Your task to perform on an android device: uninstall "Roku - Official Remote Control" Image 0: 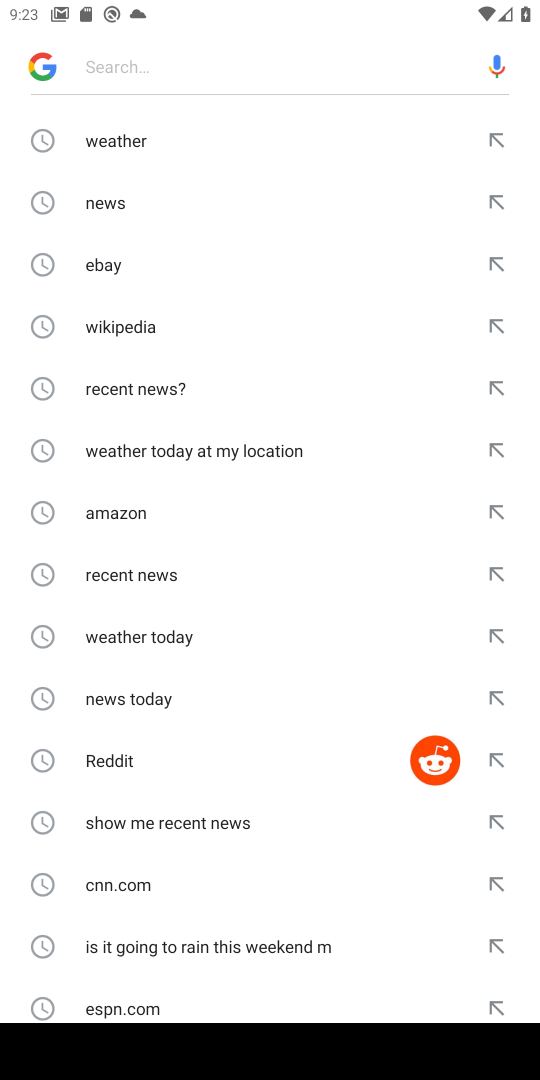
Step 0: press back button
Your task to perform on an android device: uninstall "Roku - Official Remote Control" Image 1: 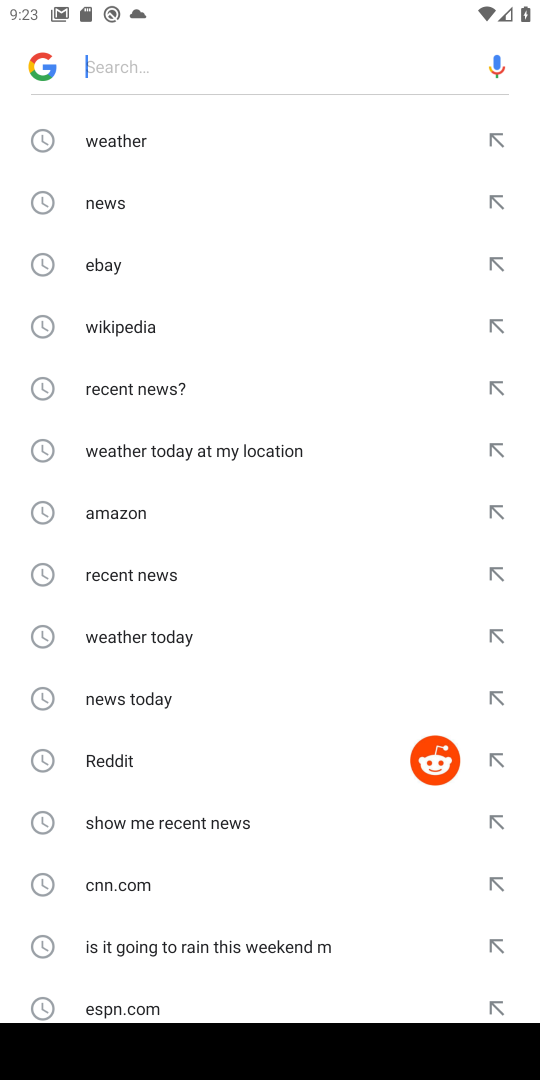
Step 1: press back button
Your task to perform on an android device: uninstall "Roku - Official Remote Control" Image 2: 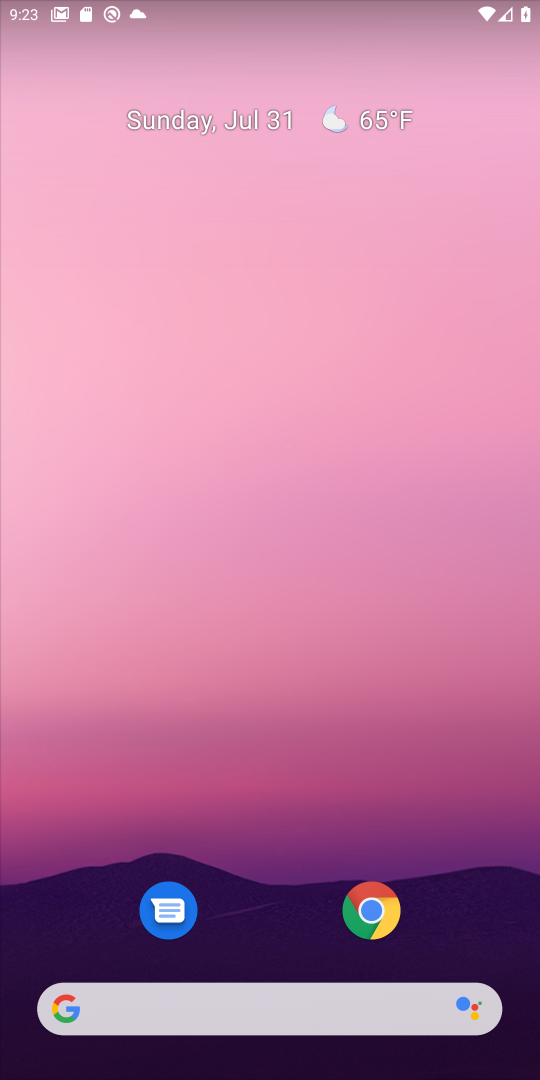
Step 2: press back button
Your task to perform on an android device: uninstall "Roku - Official Remote Control" Image 3: 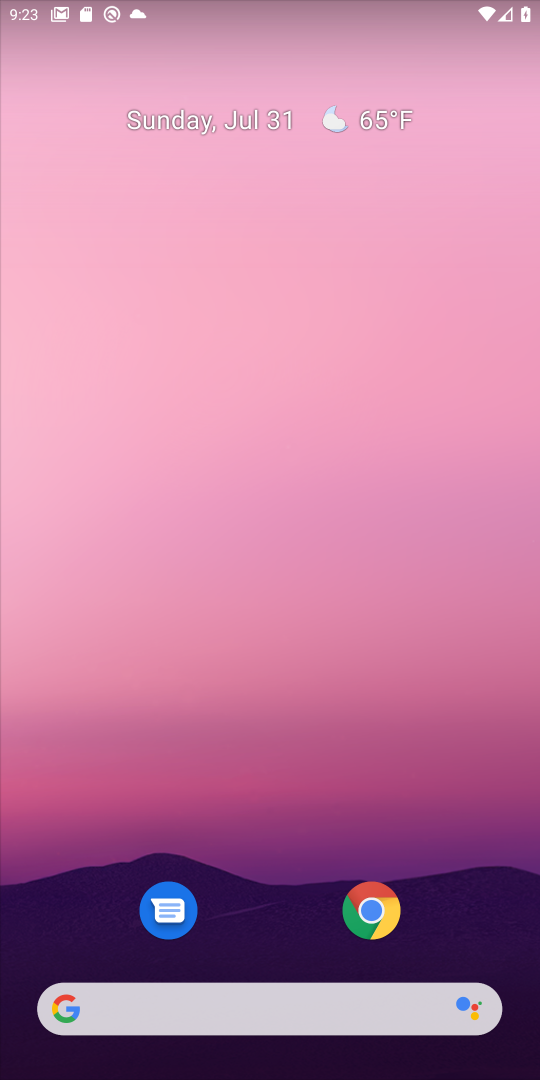
Step 3: drag from (224, 605) to (224, 294)
Your task to perform on an android device: uninstall "Roku - Official Remote Control" Image 4: 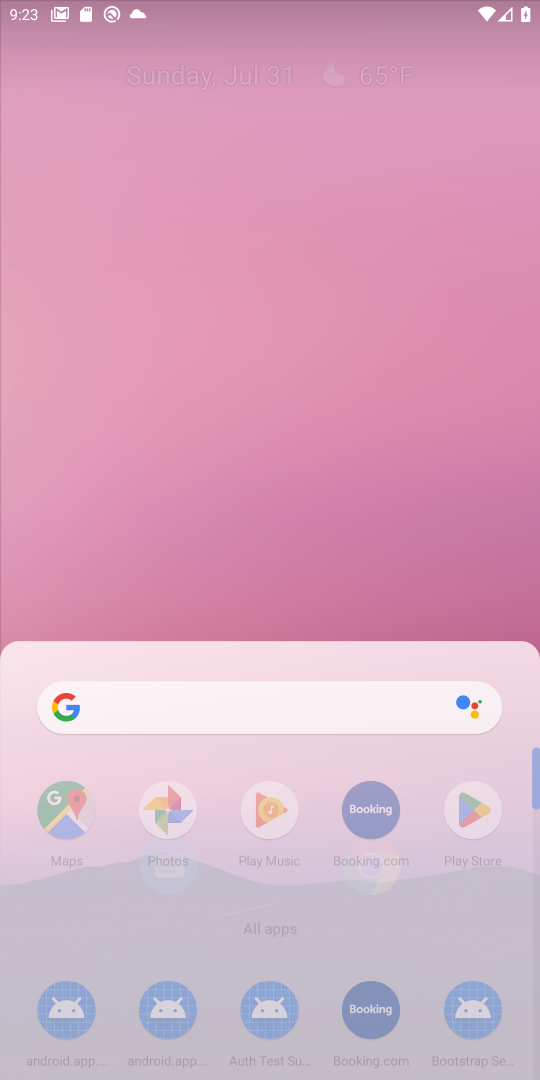
Step 4: drag from (259, 701) to (219, 565)
Your task to perform on an android device: uninstall "Roku - Official Remote Control" Image 5: 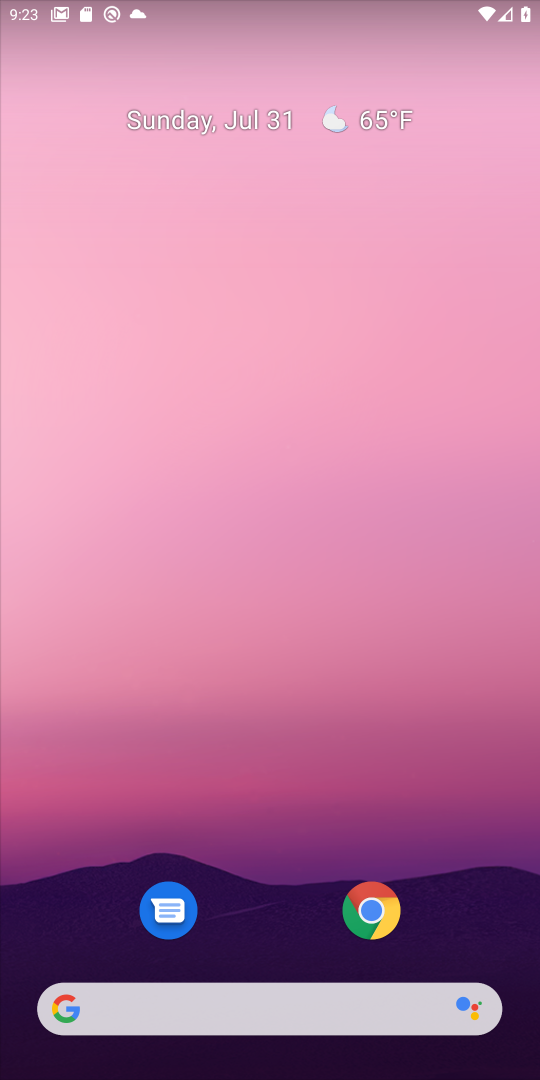
Step 5: drag from (320, 911) to (322, 283)
Your task to perform on an android device: uninstall "Roku - Official Remote Control" Image 6: 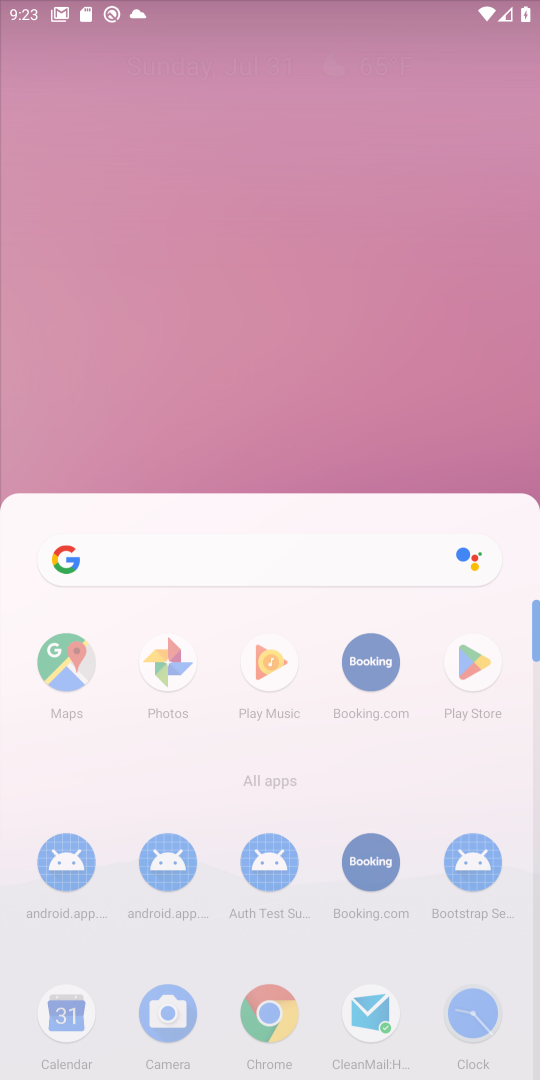
Step 6: drag from (221, 468) to (201, 350)
Your task to perform on an android device: uninstall "Roku - Official Remote Control" Image 7: 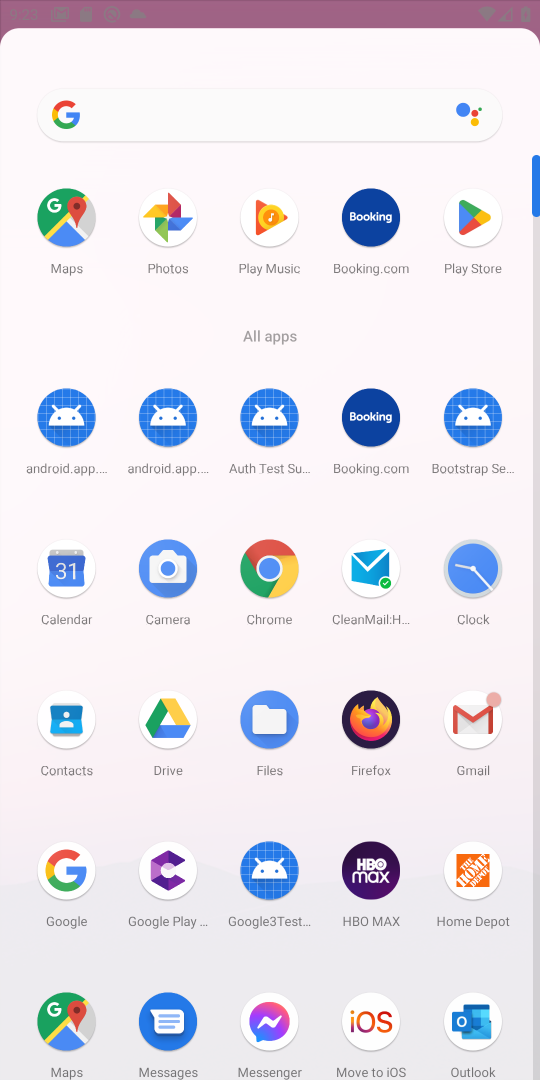
Step 7: click (222, 341)
Your task to perform on an android device: uninstall "Roku - Official Remote Control" Image 8: 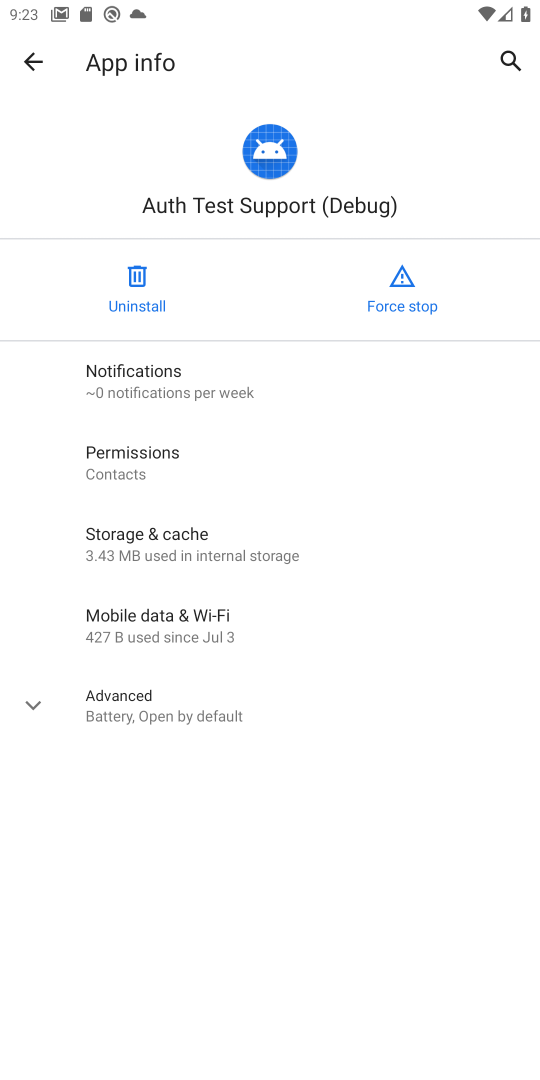
Step 8: click (29, 64)
Your task to perform on an android device: uninstall "Roku - Official Remote Control" Image 9: 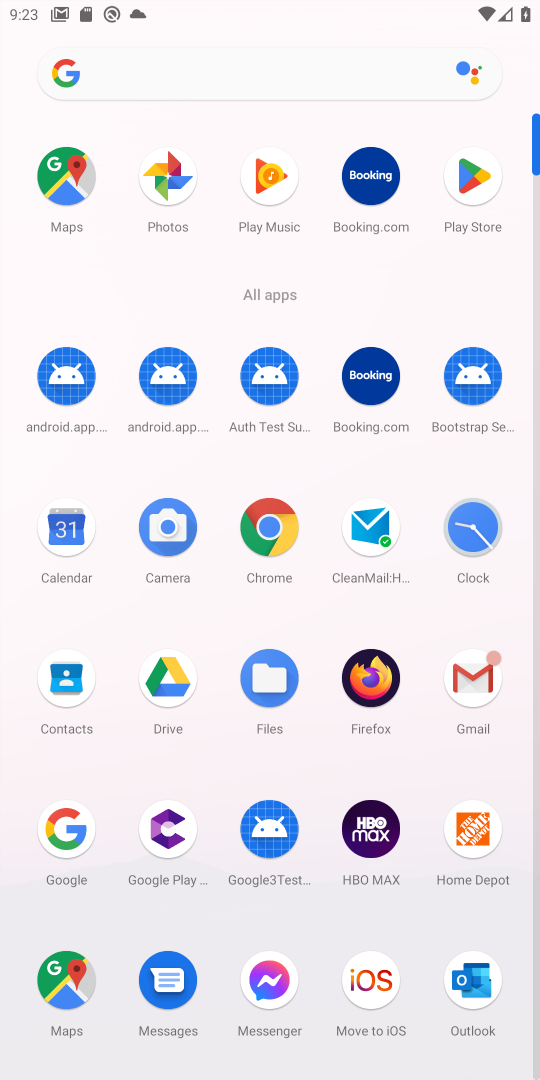
Step 9: click (476, 172)
Your task to perform on an android device: uninstall "Roku - Official Remote Control" Image 10: 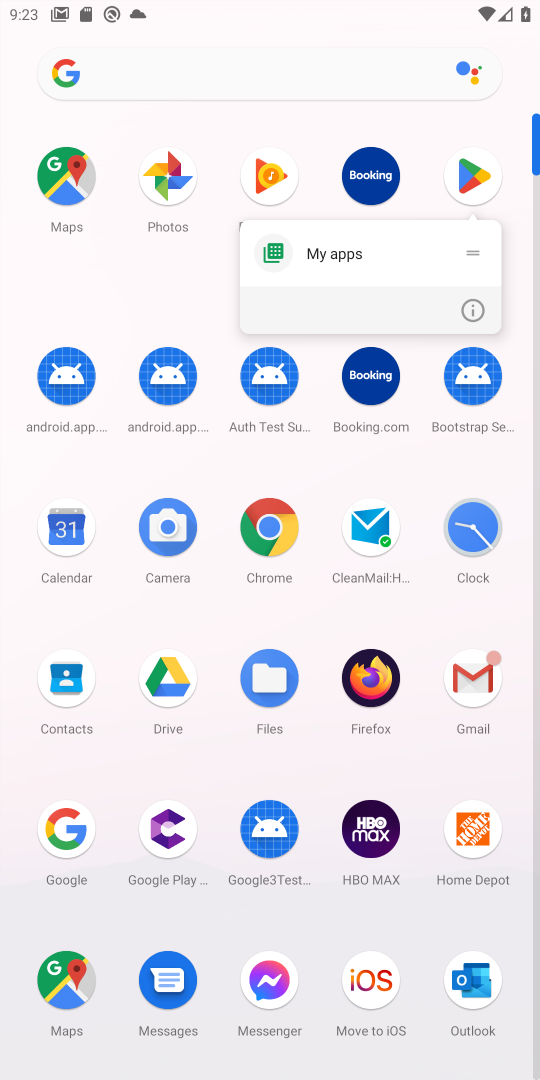
Step 10: click (248, 186)
Your task to perform on an android device: uninstall "Roku - Official Remote Control" Image 11: 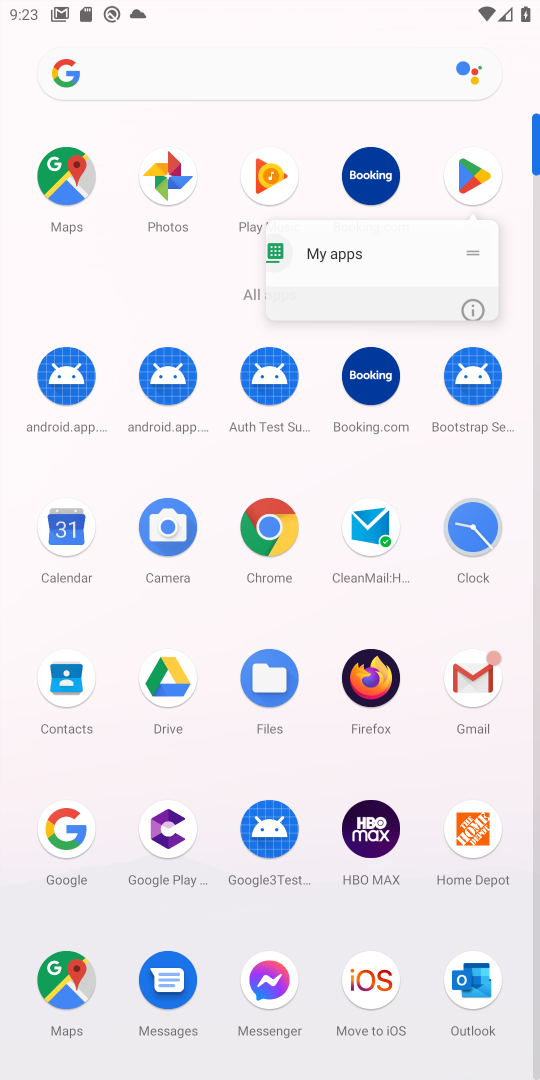
Step 11: click (248, 186)
Your task to perform on an android device: uninstall "Roku - Official Remote Control" Image 12: 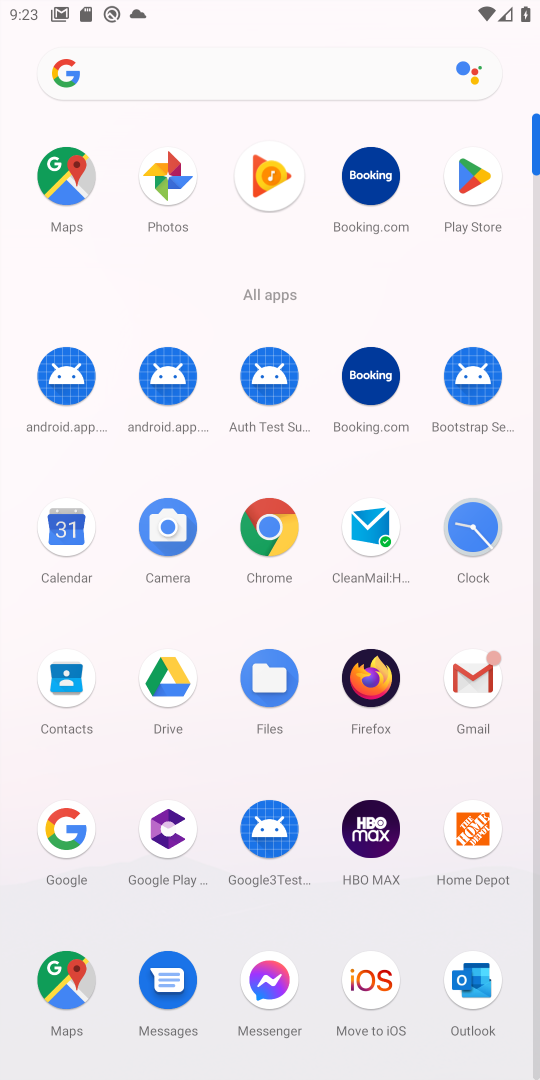
Step 12: click (248, 181)
Your task to perform on an android device: uninstall "Roku - Official Remote Control" Image 13: 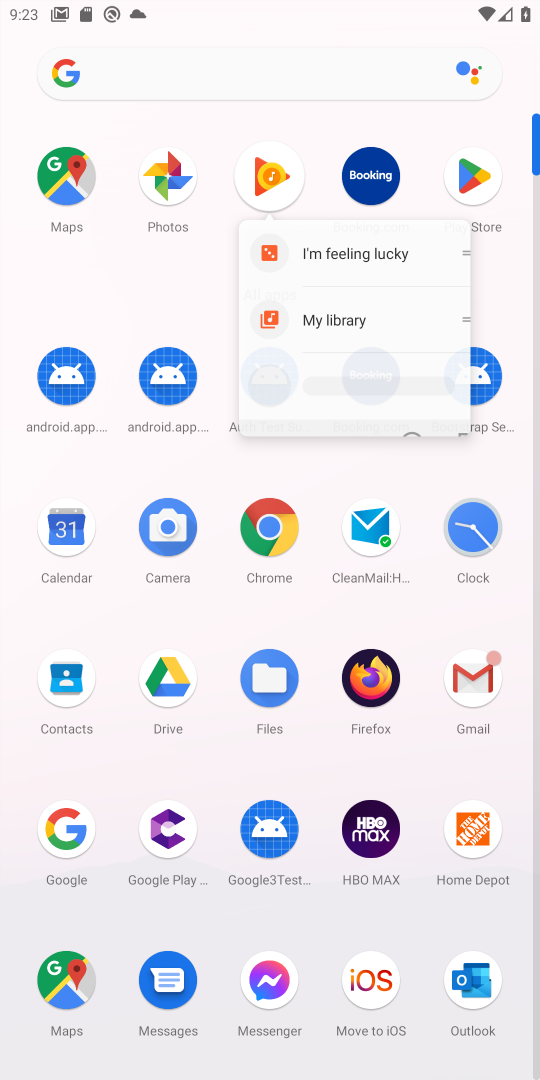
Step 13: click (251, 182)
Your task to perform on an android device: uninstall "Roku - Official Remote Control" Image 14: 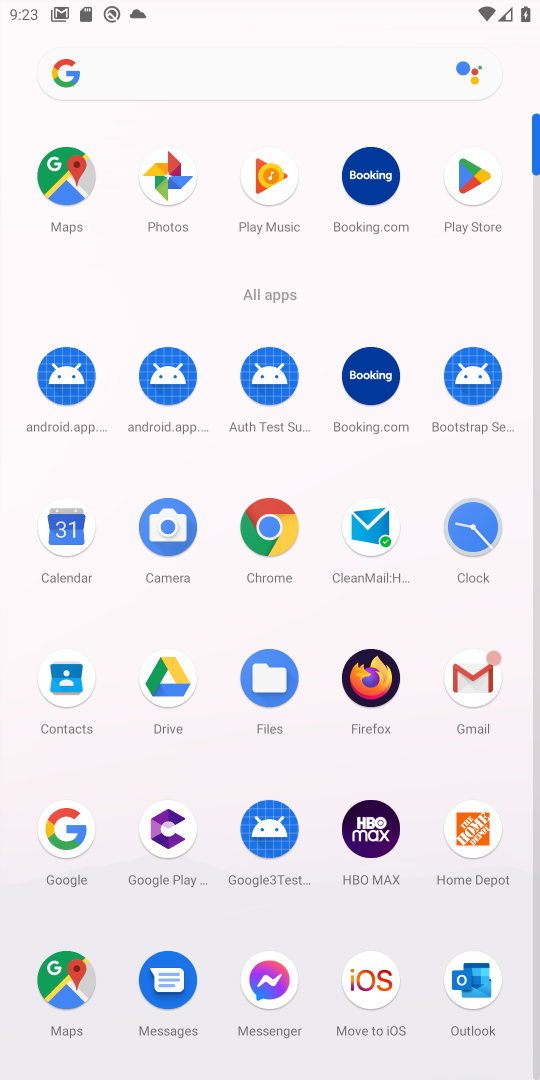
Step 14: click (479, 182)
Your task to perform on an android device: uninstall "Roku - Official Remote Control" Image 15: 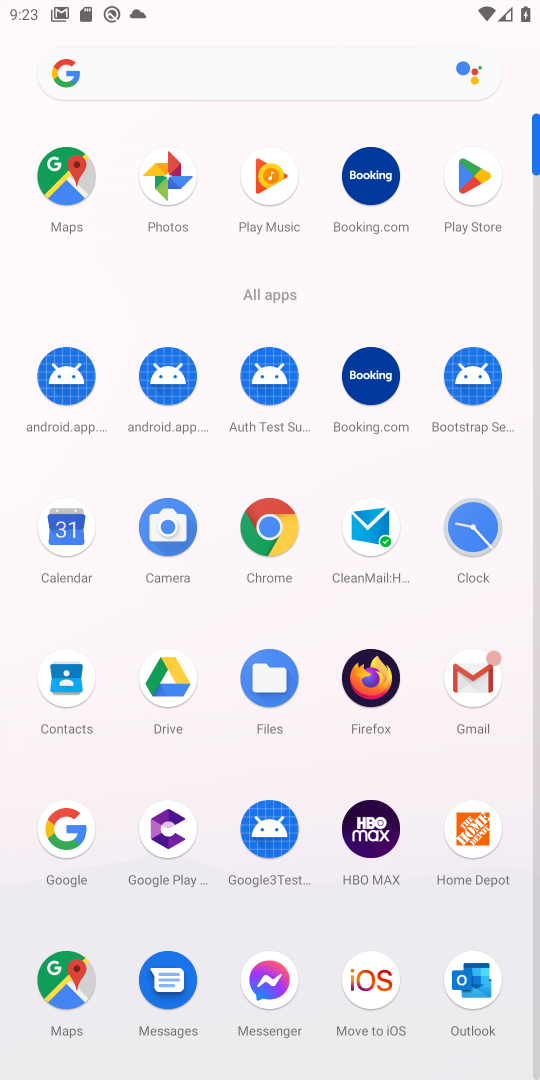
Step 15: click (480, 189)
Your task to perform on an android device: uninstall "Roku - Official Remote Control" Image 16: 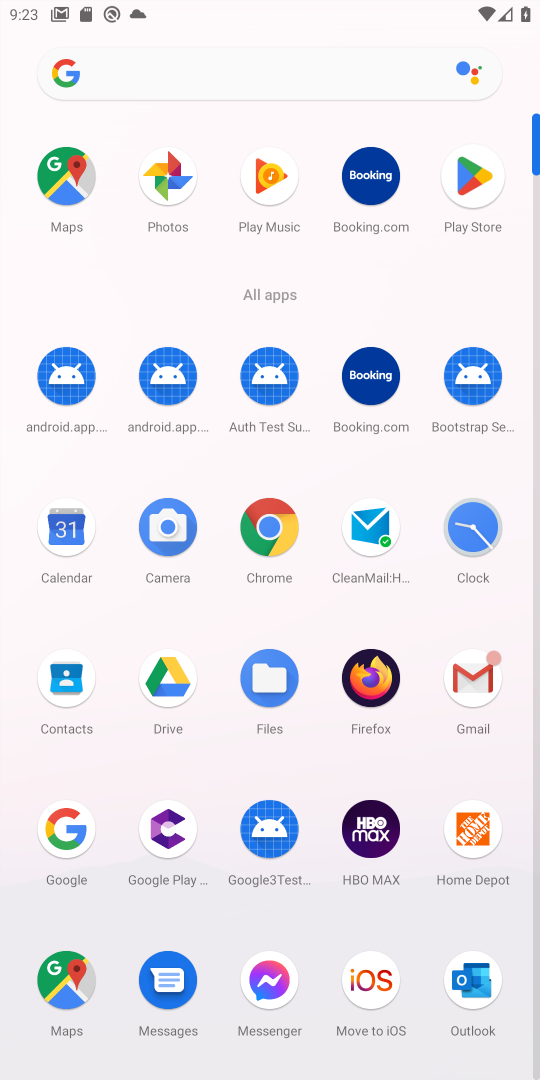
Step 16: click (473, 178)
Your task to perform on an android device: uninstall "Roku - Official Remote Control" Image 17: 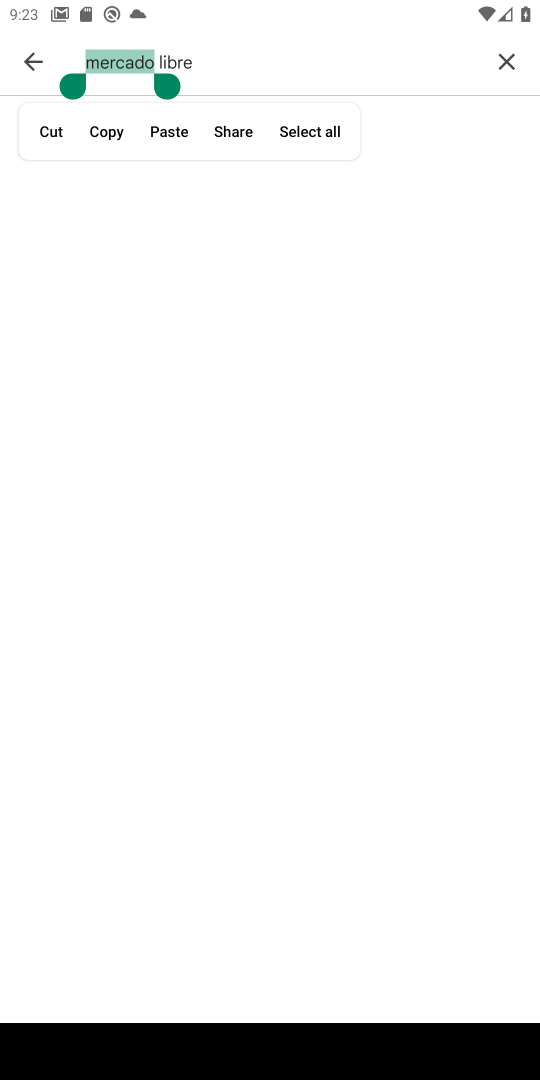
Step 17: click (510, 60)
Your task to perform on an android device: uninstall "Roku - Official Remote Control" Image 18: 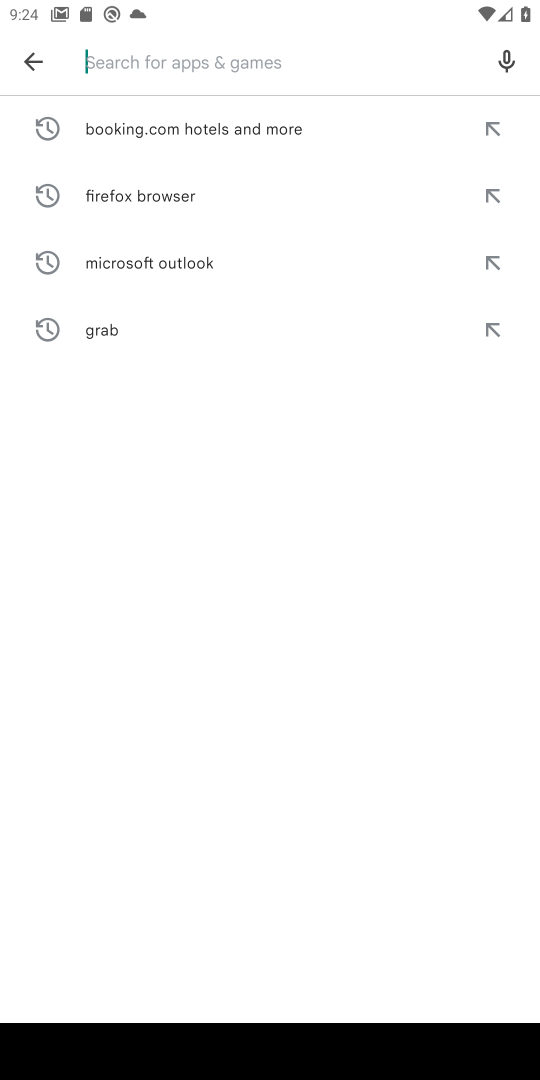
Step 18: type "Roku- Official Remote Control"
Your task to perform on an android device: uninstall "Roku - Official Remote Control" Image 19: 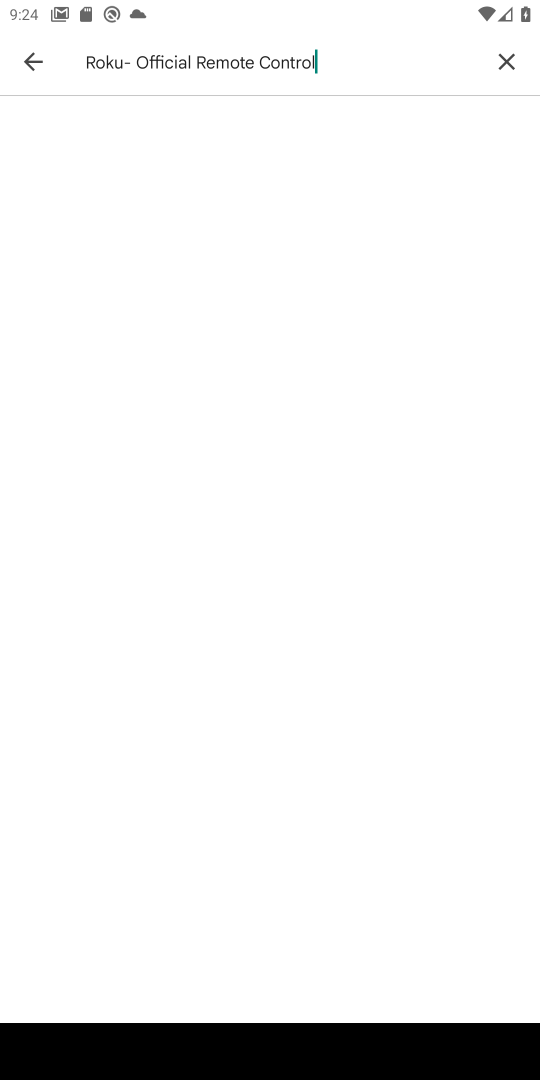
Step 19: click (236, 80)
Your task to perform on an android device: uninstall "Roku - Official Remote Control" Image 20: 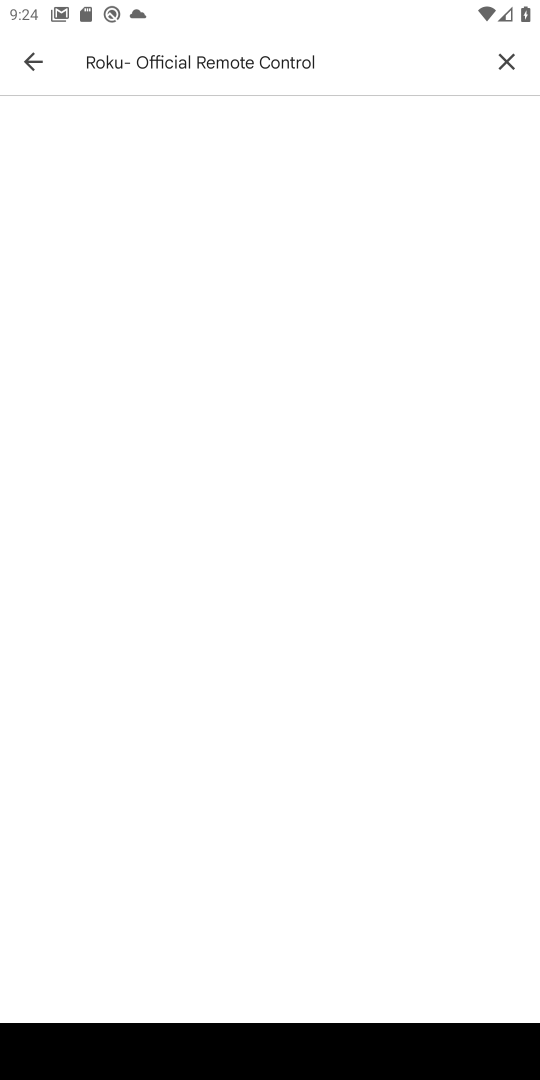
Step 20: click (236, 80)
Your task to perform on an android device: uninstall "Roku - Official Remote Control" Image 21: 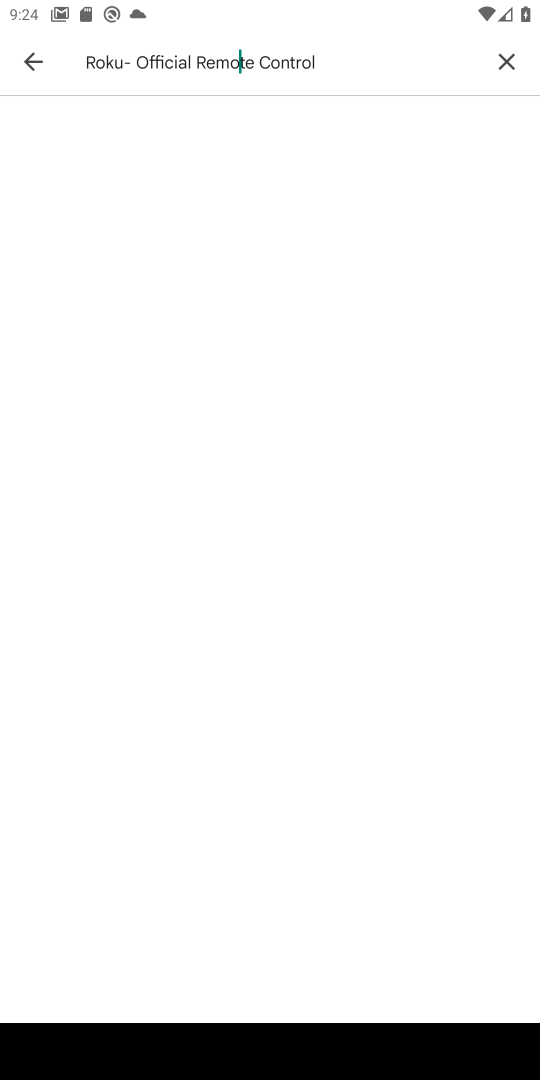
Step 21: click (236, 80)
Your task to perform on an android device: uninstall "Roku - Official Remote Control" Image 22: 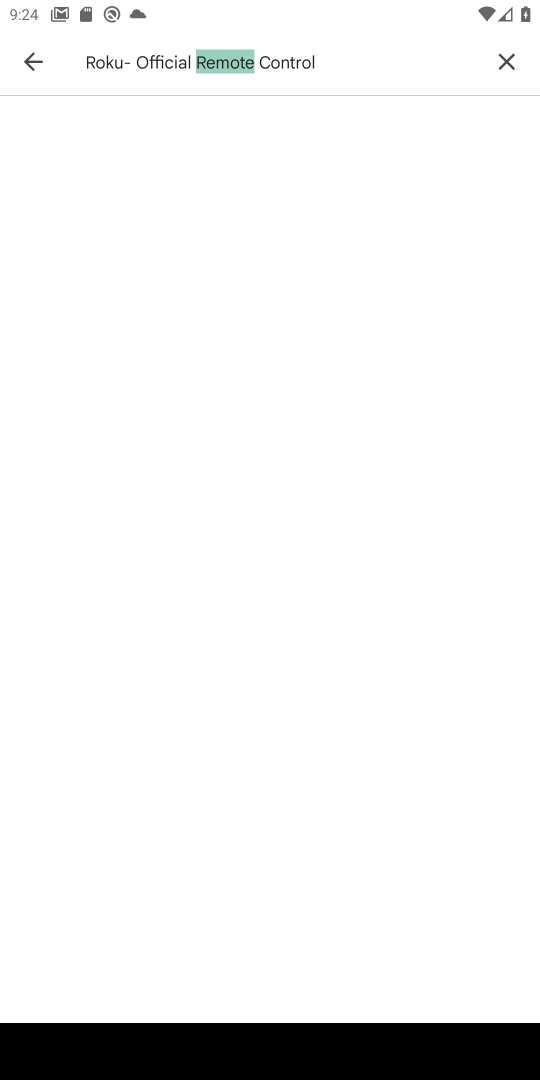
Step 22: click (236, 80)
Your task to perform on an android device: uninstall "Roku - Official Remote Control" Image 23: 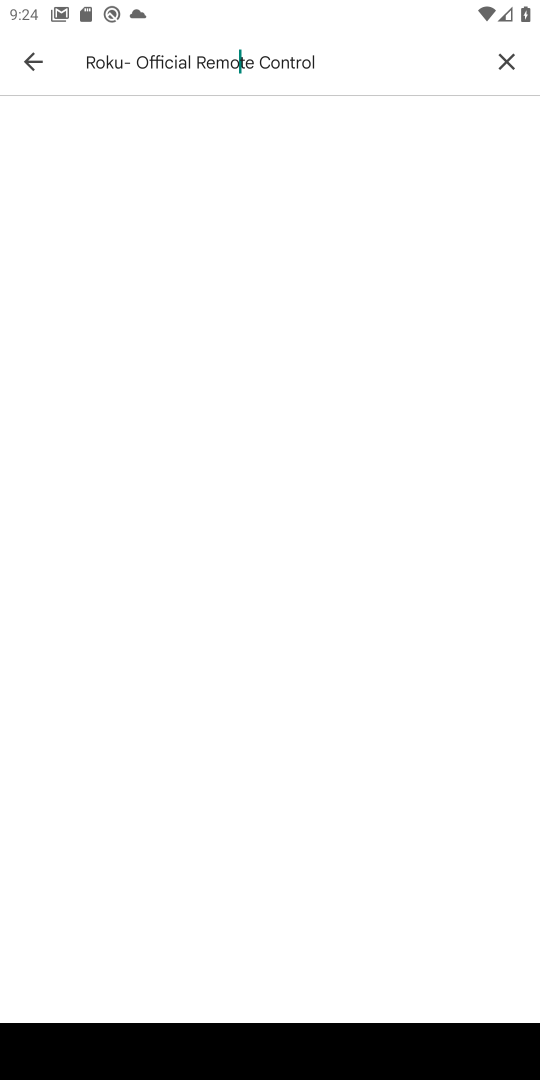
Step 23: click (236, 80)
Your task to perform on an android device: uninstall "Roku - Official Remote Control" Image 24: 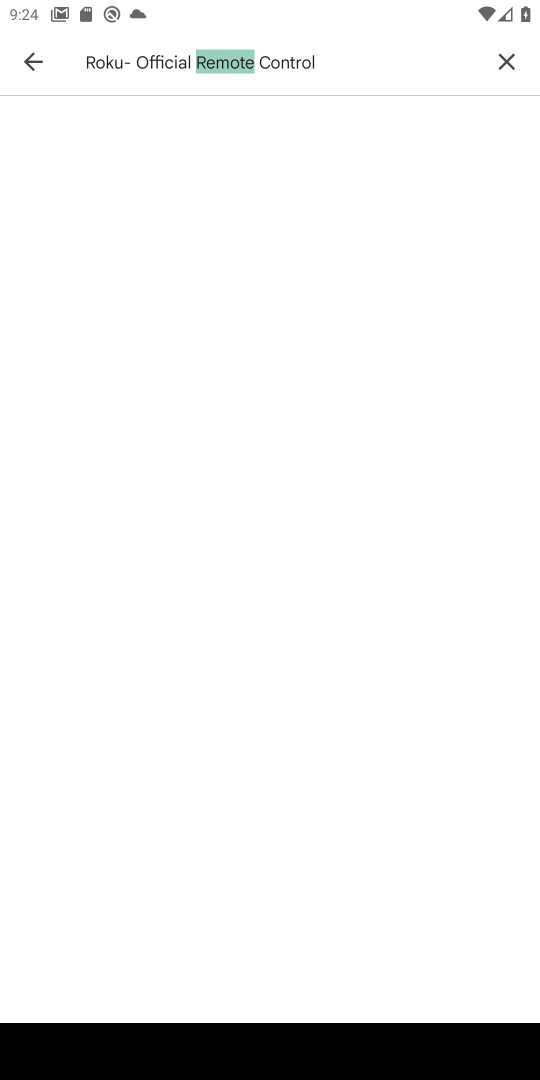
Step 24: click (236, 80)
Your task to perform on an android device: uninstall "Roku - Official Remote Control" Image 25: 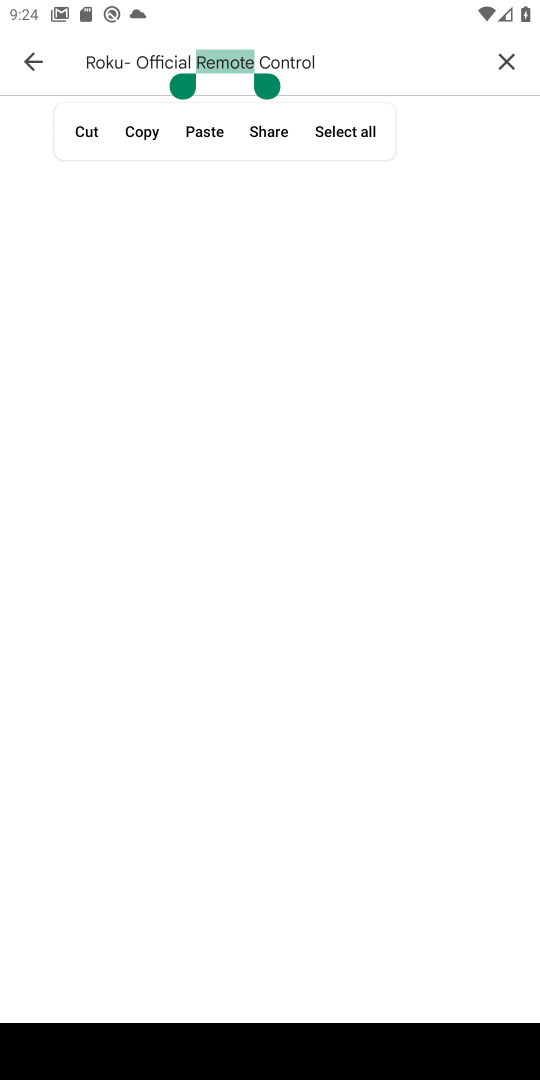
Step 25: click (301, 72)
Your task to perform on an android device: uninstall "Roku - Official Remote Control" Image 26: 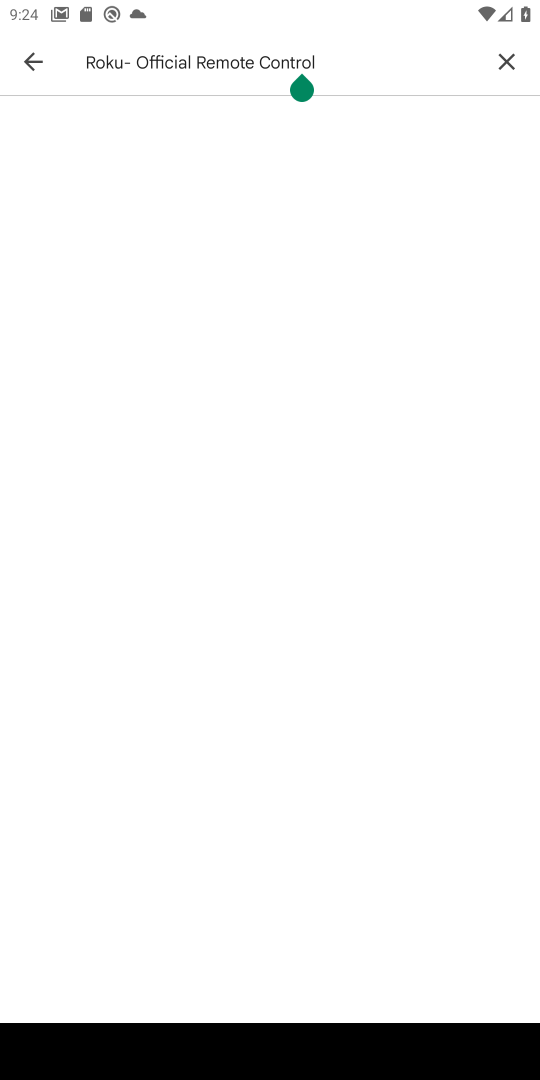
Step 26: click (330, 65)
Your task to perform on an android device: uninstall "Roku - Official Remote Control" Image 27: 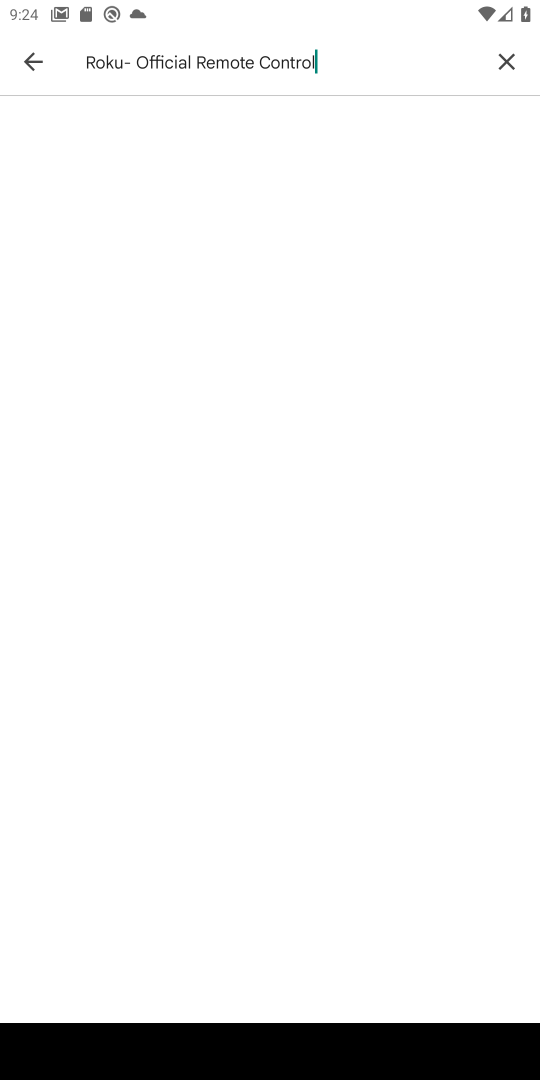
Step 27: click (330, 65)
Your task to perform on an android device: uninstall "Roku - Official Remote Control" Image 28: 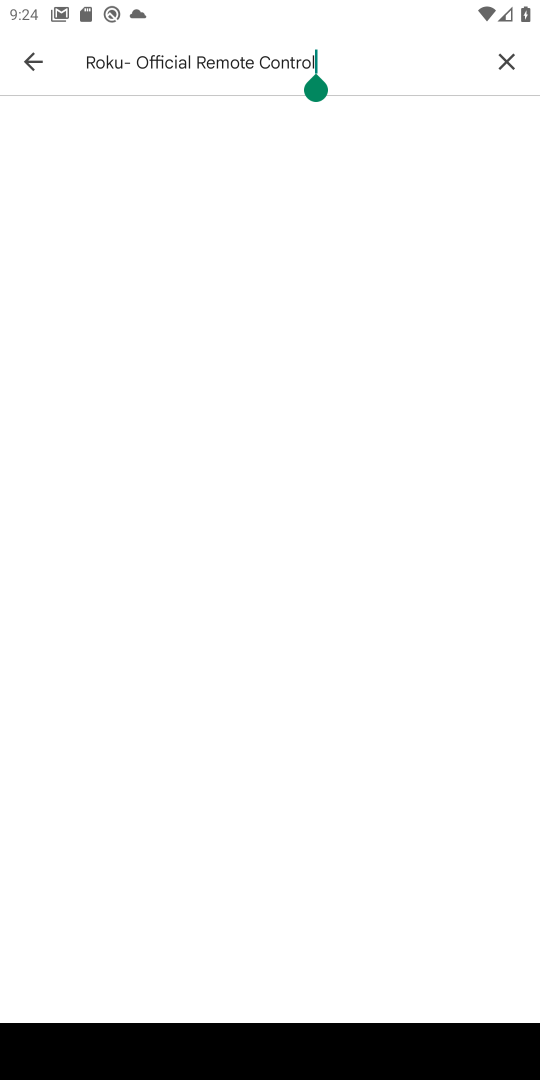
Step 28: click (322, 48)
Your task to perform on an android device: uninstall "Roku - Official Remote Control" Image 29: 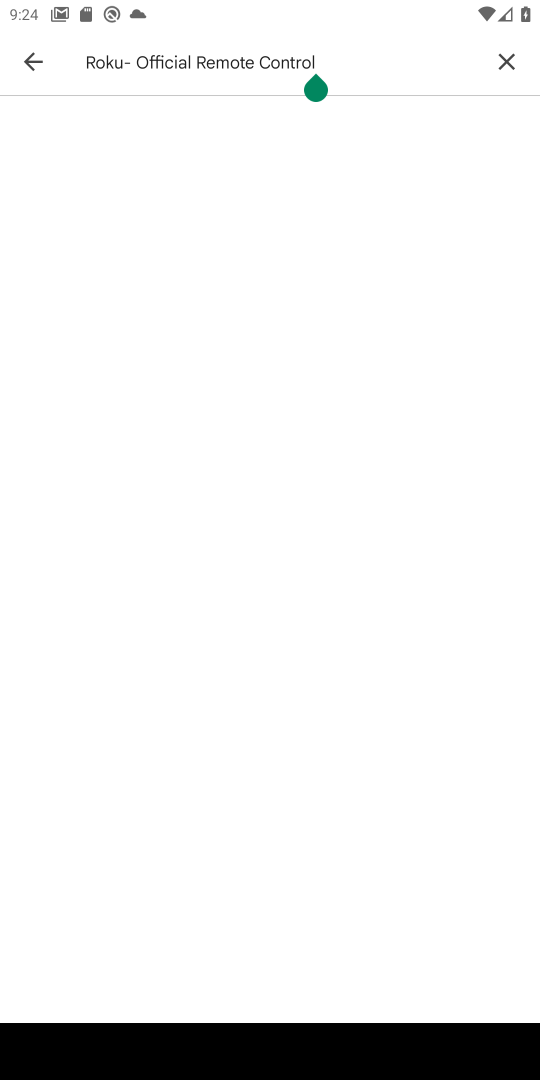
Step 29: click (322, 48)
Your task to perform on an android device: uninstall "Roku - Official Remote Control" Image 30: 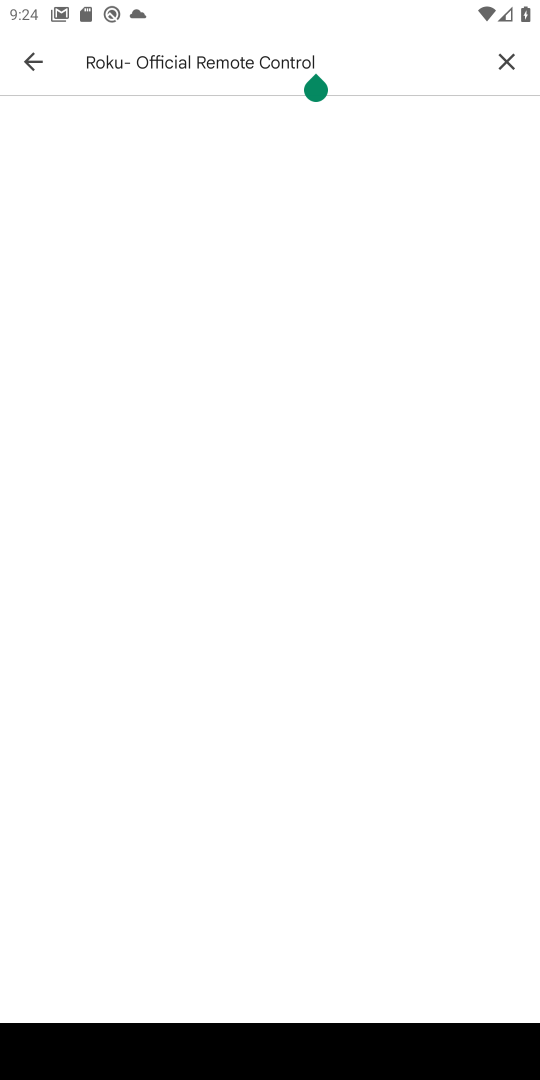
Step 30: click (322, 48)
Your task to perform on an android device: uninstall "Roku - Official Remote Control" Image 31: 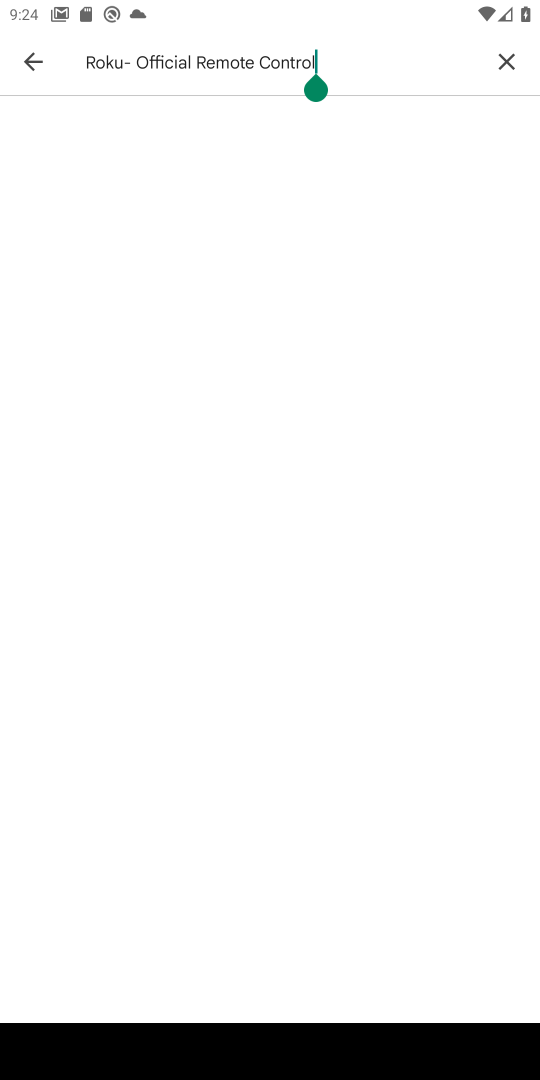
Step 31: click (212, 66)
Your task to perform on an android device: uninstall "Roku - Official Remote Control" Image 32: 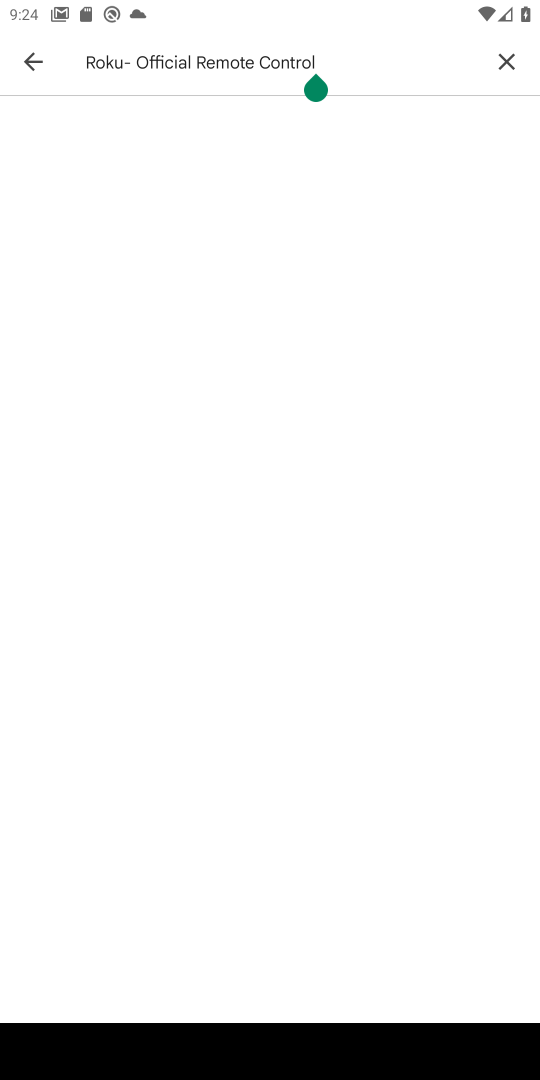
Step 32: click (217, 66)
Your task to perform on an android device: uninstall "Roku - Official Remote Control" Image 33: 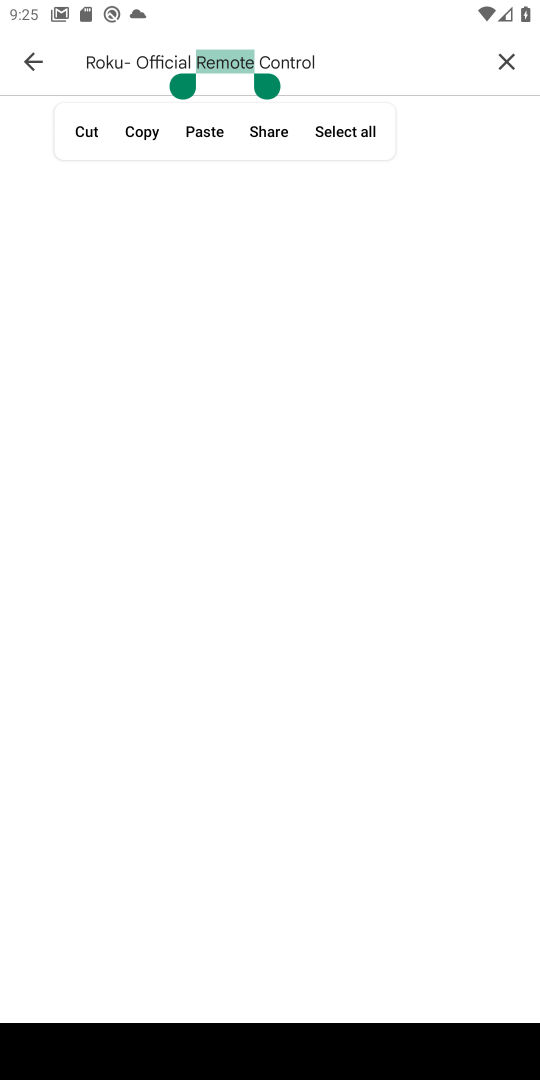
Step 33: click (322, 64)
Your task to perform on an android device: uninstall "Roku - Official Remote Control" Image 34: 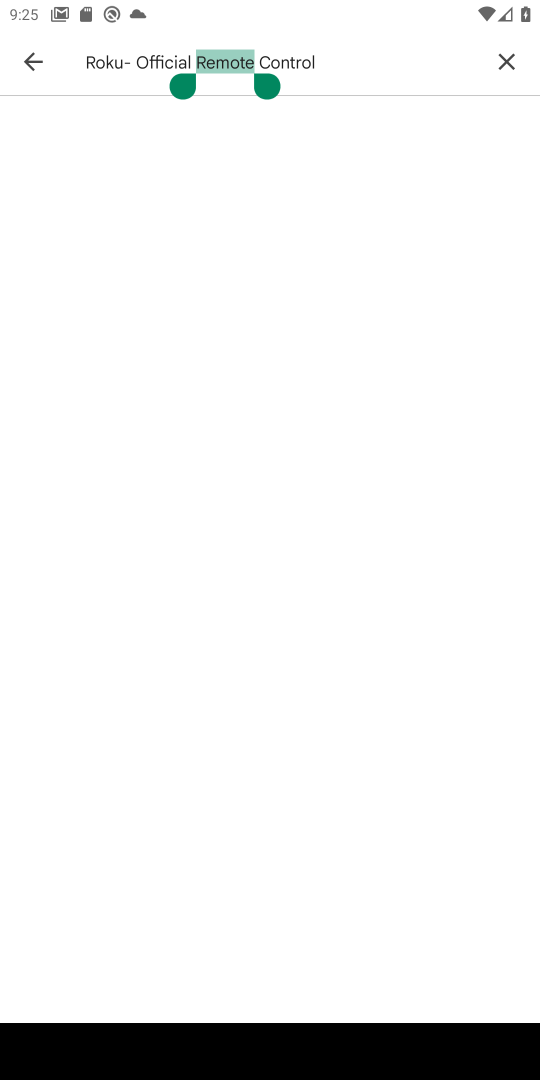
Step 34: click (327, 61)
Your task to perform on an android device: uninstall "Roku - Official Remote Control" Image 35: 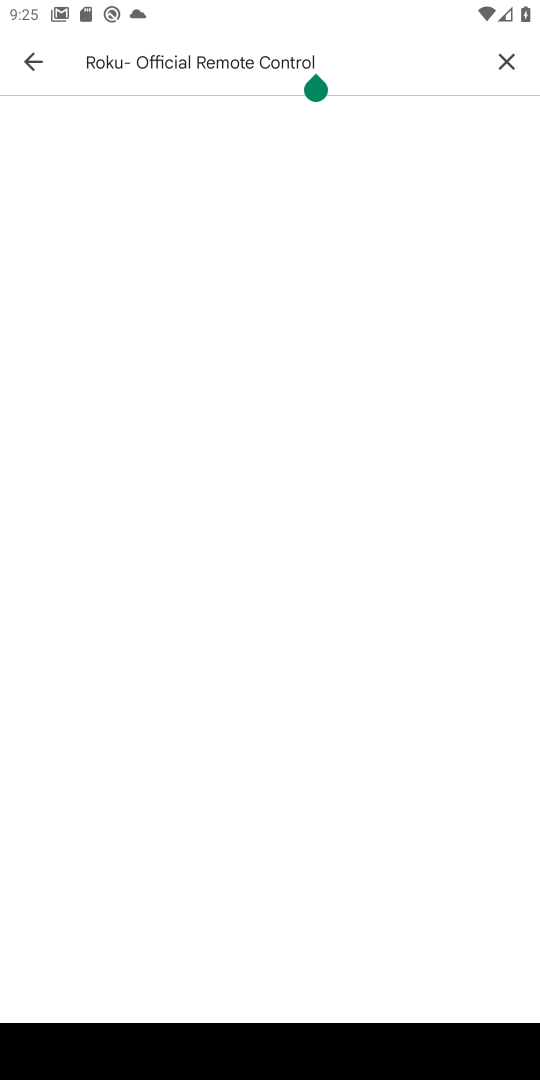
Step 35: click (500, 65)
Your task to perform on an android device: uninstall "Roku - Official Remote Control" Image 36: 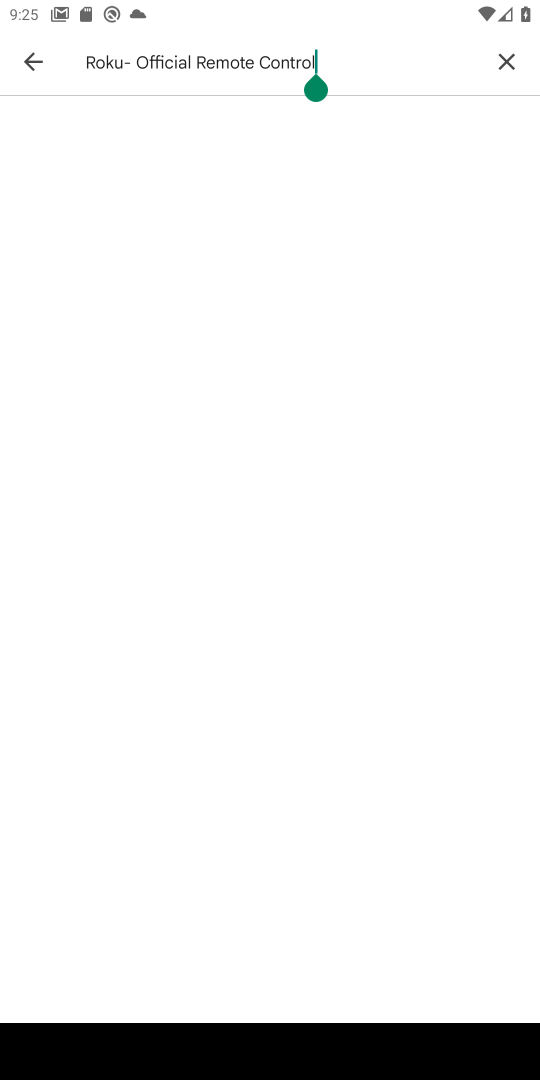
Step 36: click (508, 69)
Your task to perform on an android device: uninstall "Roku - Official Remote Control" Image 37: 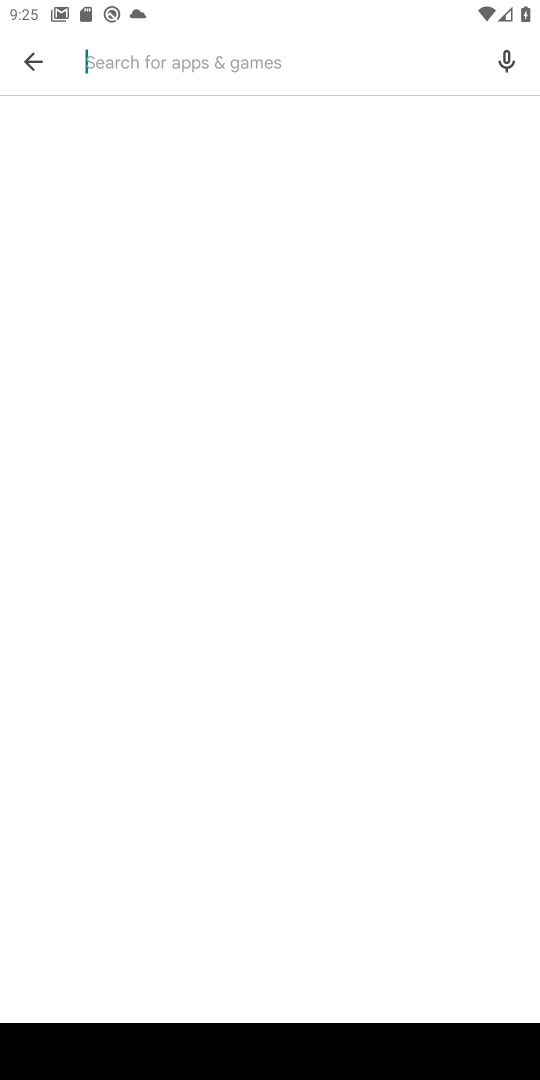
Step 37: click (508, 69)
Your task to perform on an android device: uninstall "Roku - Official Remote Control" Image 38: 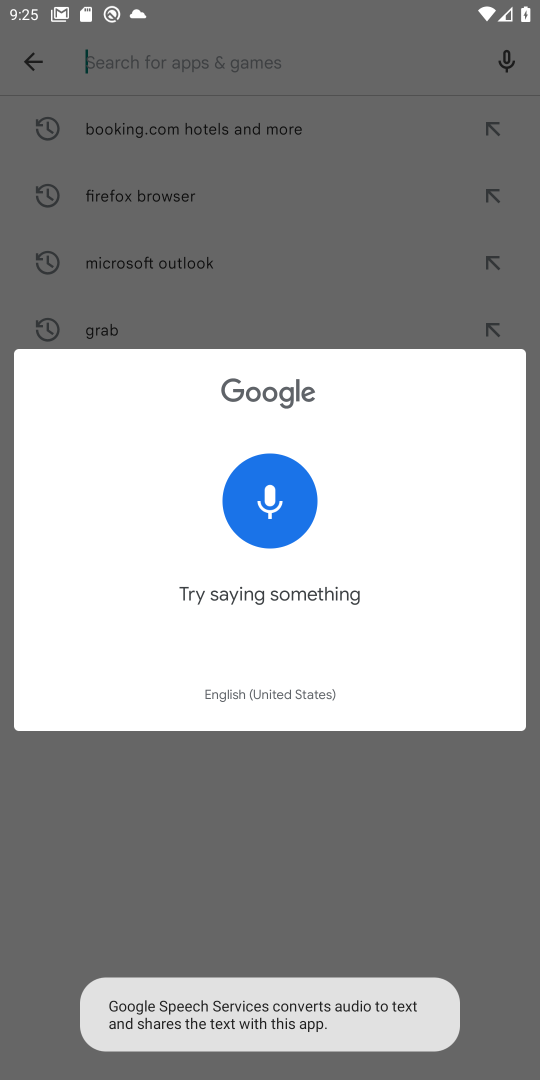
Step 38: click (32, 62)
Your task to perform on an android device: uninstall "Roku - Official Remote Control" Image 39: 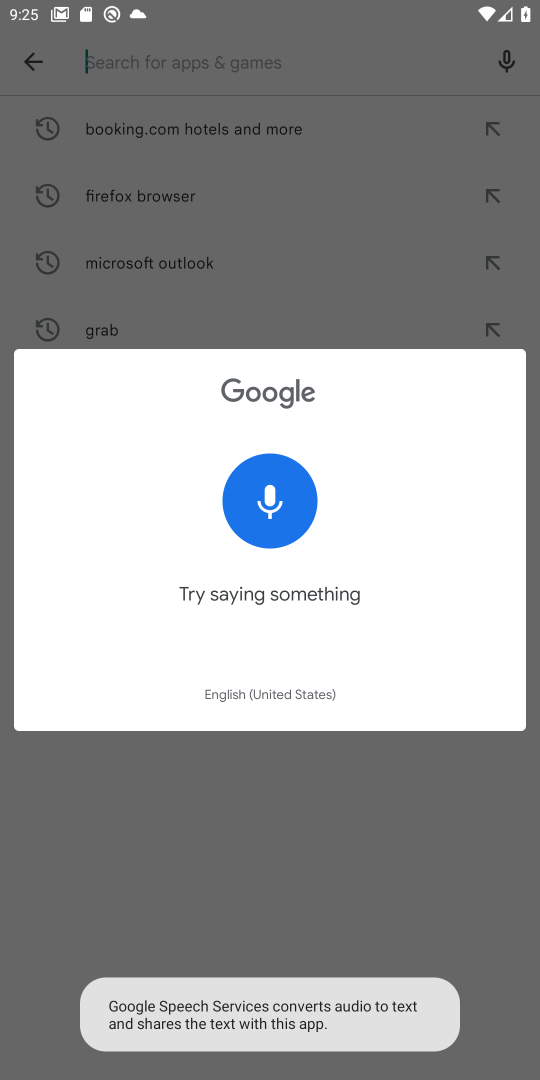
Step 39: click (32, 62)
Your task to perform on an android device: uninstall "Roku - Official Remote Control" Image 40: 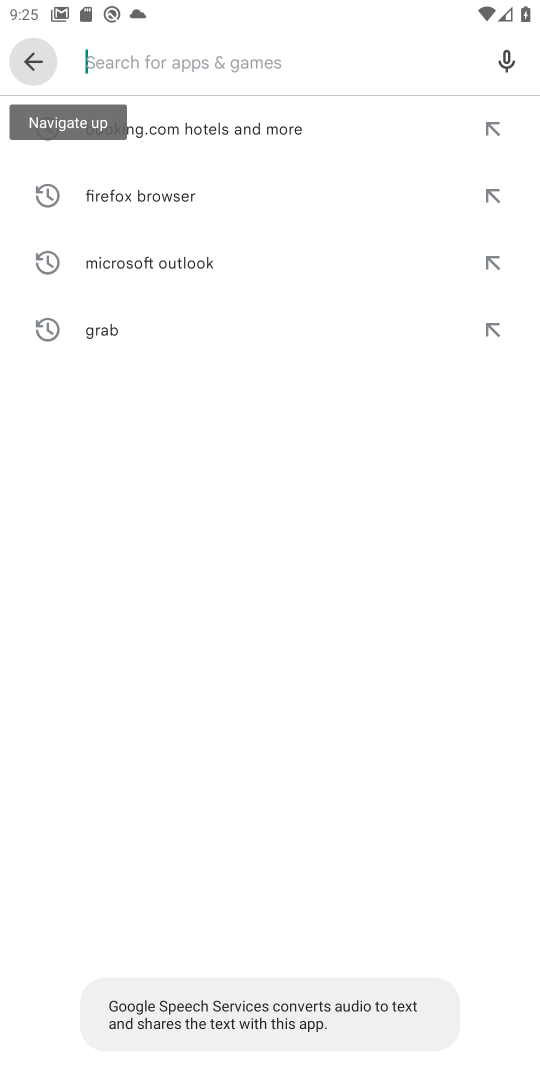
Step 40: click (296, 224)
Your task to perform on an android device: uninstall "Roku - Official Remote Control" Image 41: 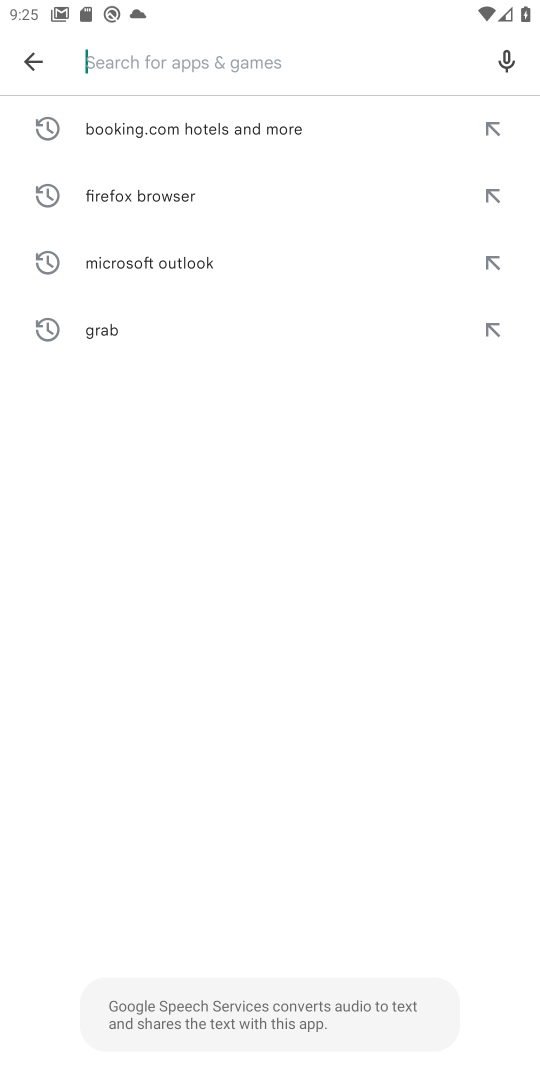
Step 41: click (302, 225)
Your task to perform on an android device: uninstall "Roku - Official Remote Control" Image 42: 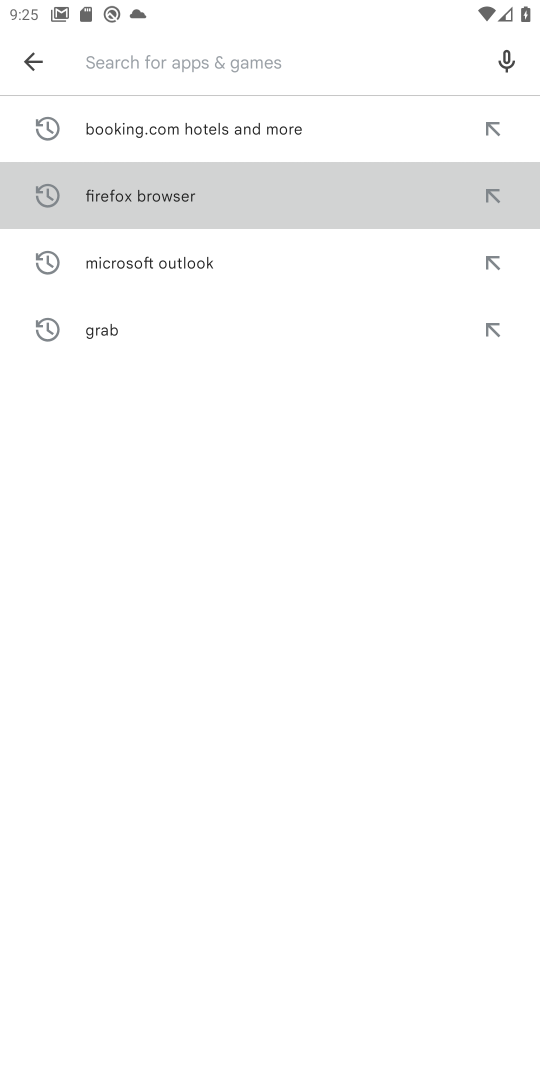
Step 42: click (305, 233)
Your task to perform on an android device: uninstall "Roku - Official Remote Control" Image 43: 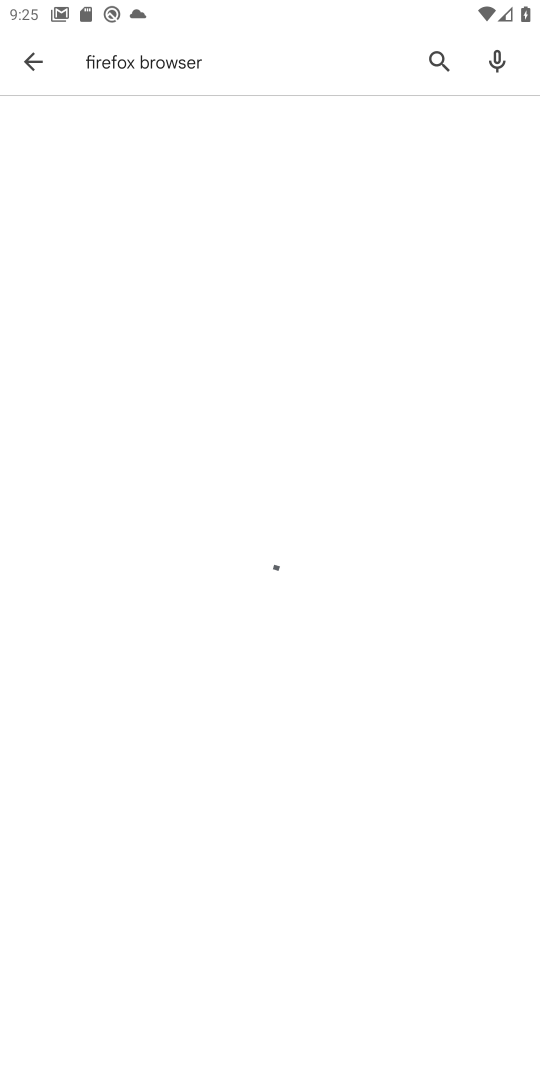
Step 43: click (328, 262)
Your task to perform on an android device: uninstall "Roku - Official Remote Control" Image 44: 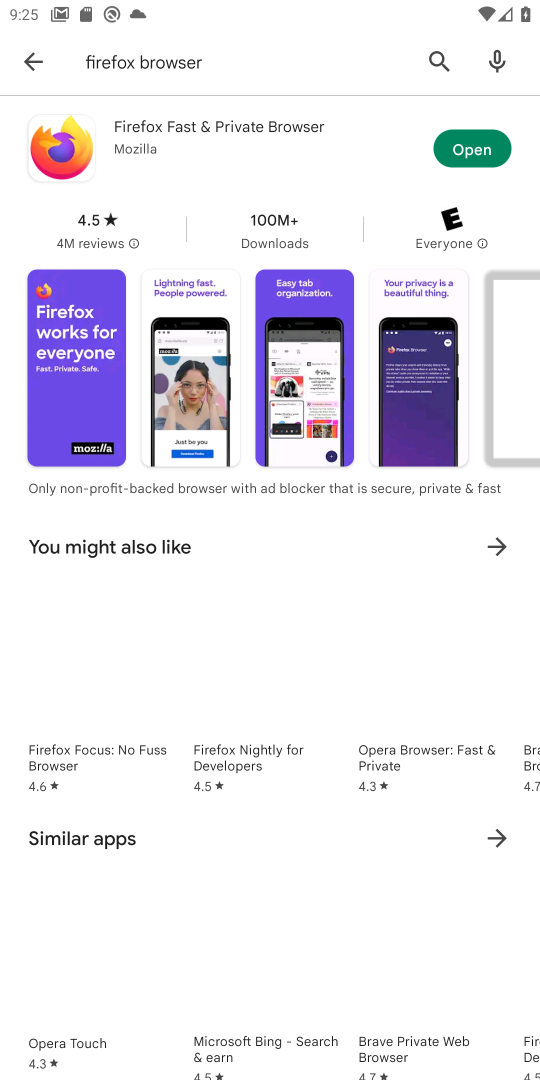
Step 44: click (40, 55)
Your task to perform on an android device: uninstall "Roku - Official Remote Control" Image 45: 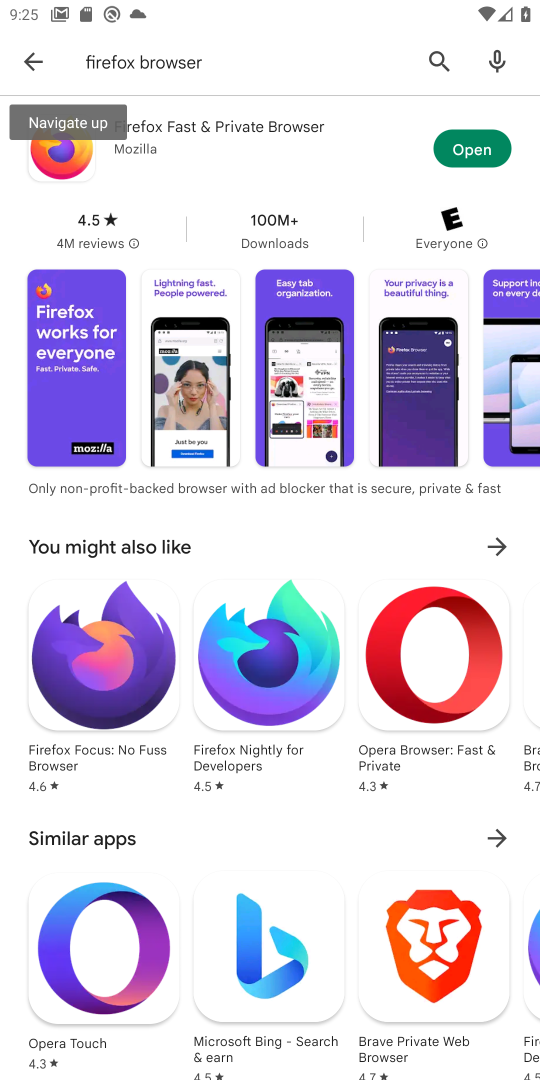
Step 45: click (49, 76)
Your task to perform on an android device: uninstall "Roku - Official Remote Control" Image 46: 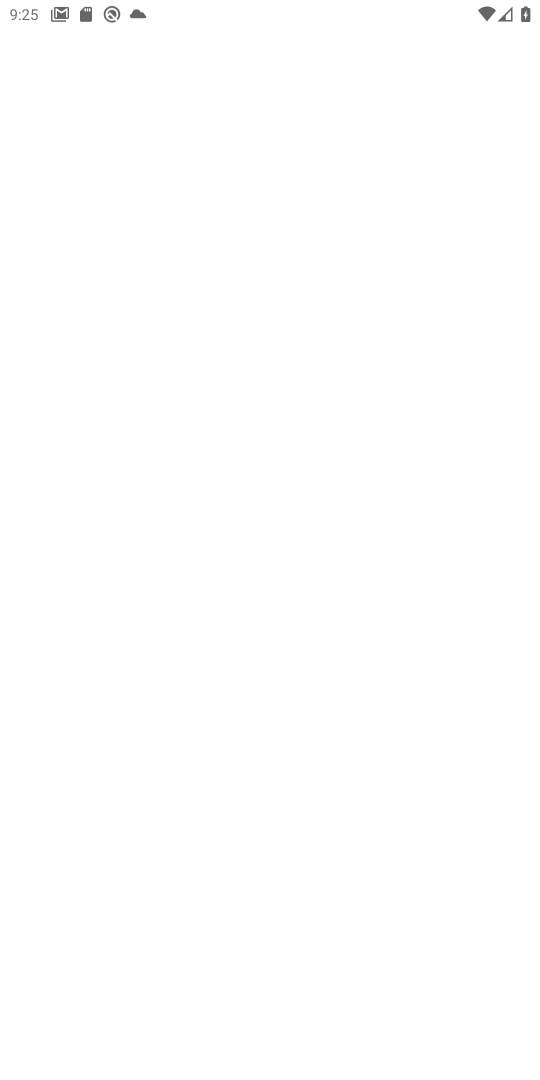
Step 46: press back button
Your task to perform on an android device: uninstall "Roku - Official Remote Control" Image 47: 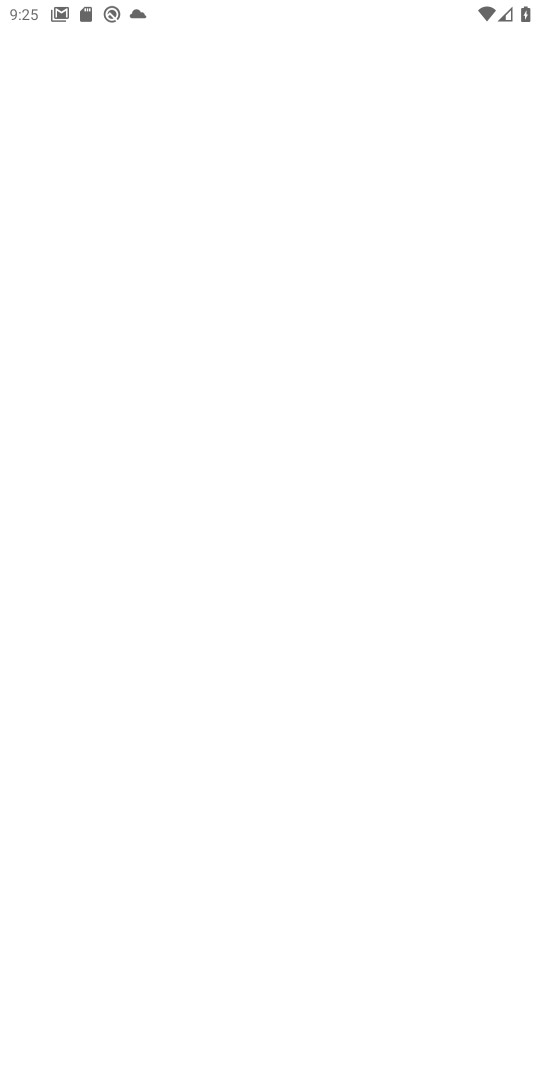
Step 47: press back button
Your task to perform on an android device: uninstall "Roku - Official Remote Control" Image 48: 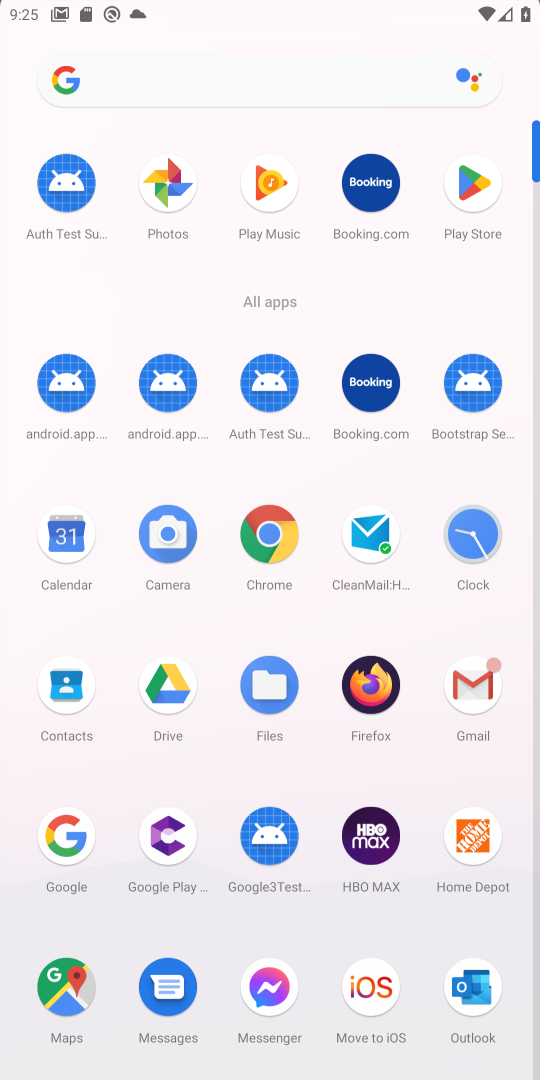
Step 48: press back button
Your task to perform on an android device: uninstall "Roku - Official Remote Control" Image 49: 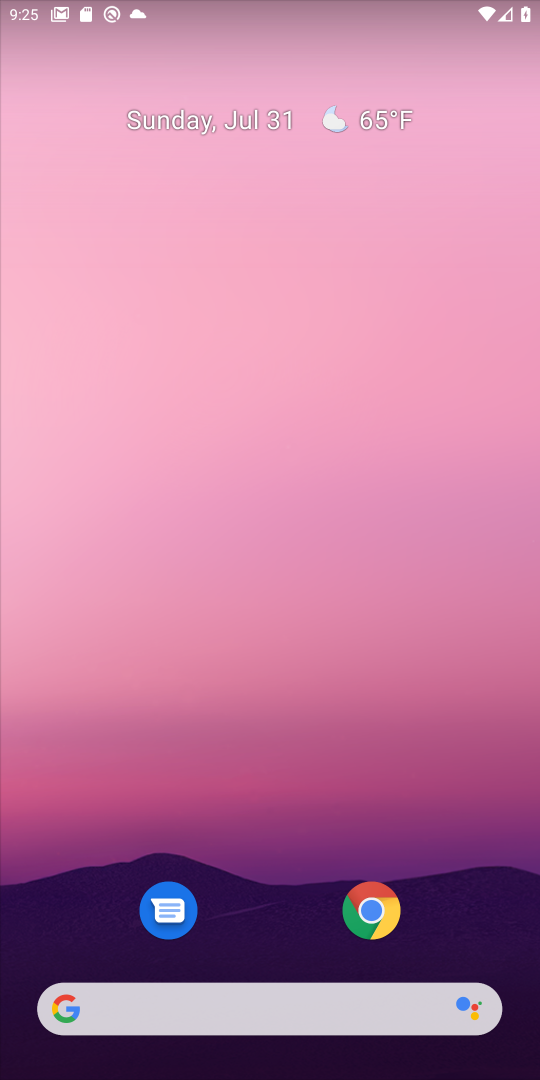
Step 49: drag from (168, 654) to (288, 265)
Your task to perform on an android device: uninstall "Roku - Official Remote Control" Image 50: 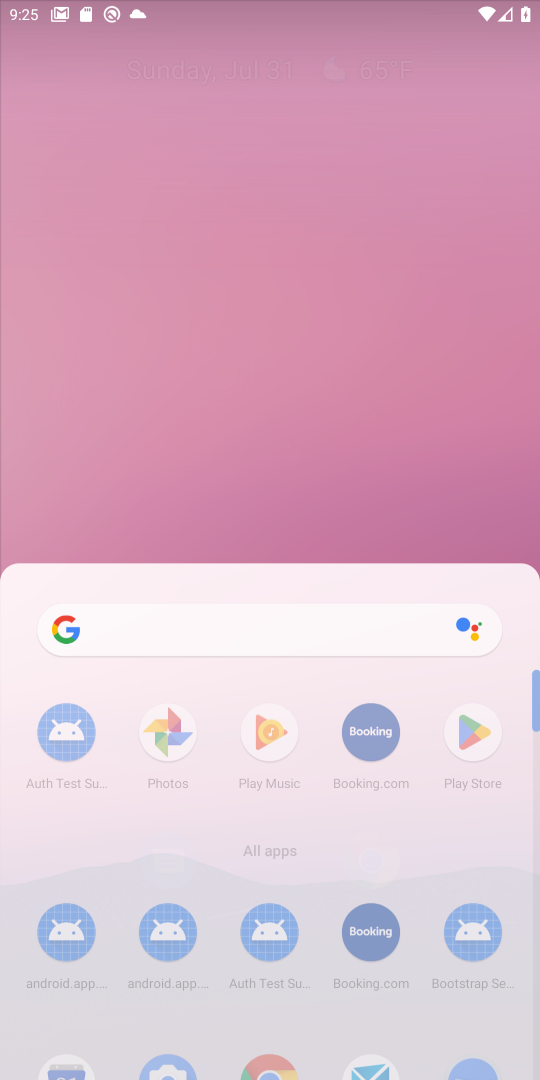
Step 50: drag from (301, 784) to (310, 380)
Your task to perform on an android device: uninstall "Roku - Official Remote Control" Image 51: 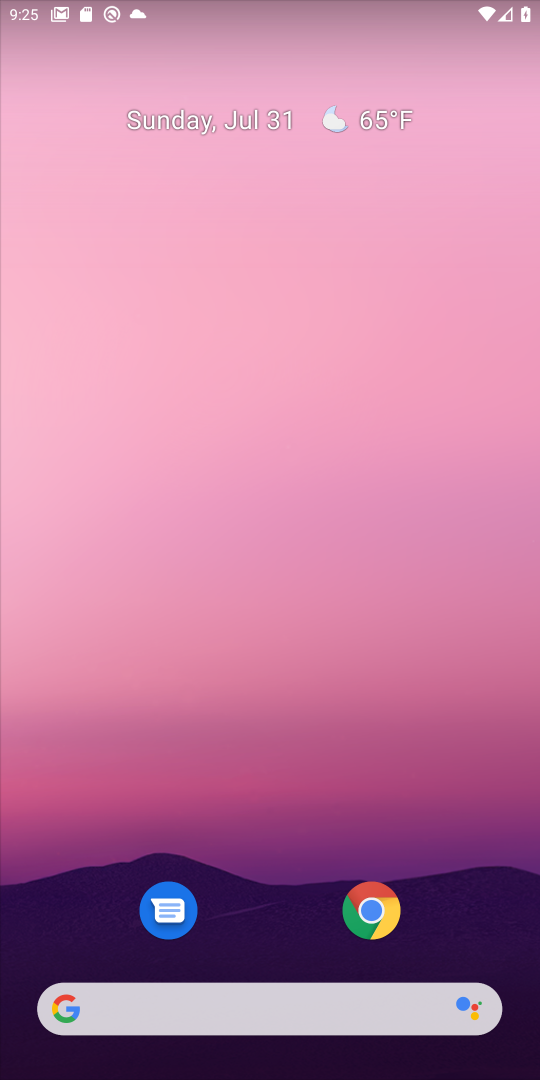
Step 51: drag from (268, 880) to (219, 332)
Your task to perform on an android device: uninstall "Roku - Official Remote Control" Image 52: 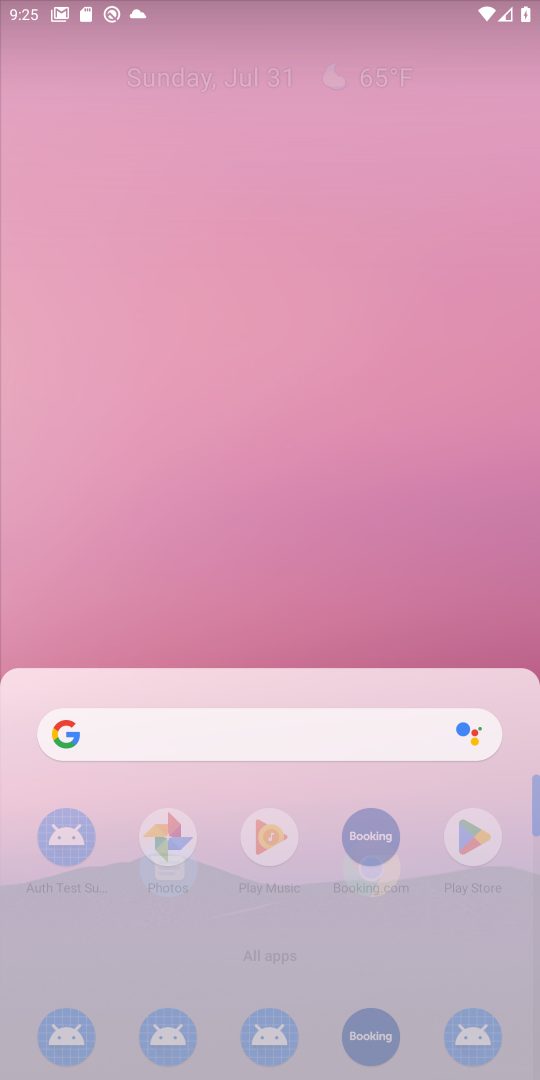
Step 52: drag from (337, 1029) to (331, 328)
Your task to perform on an android device: uninstall "Roku - Official Remote Control" Image 53: 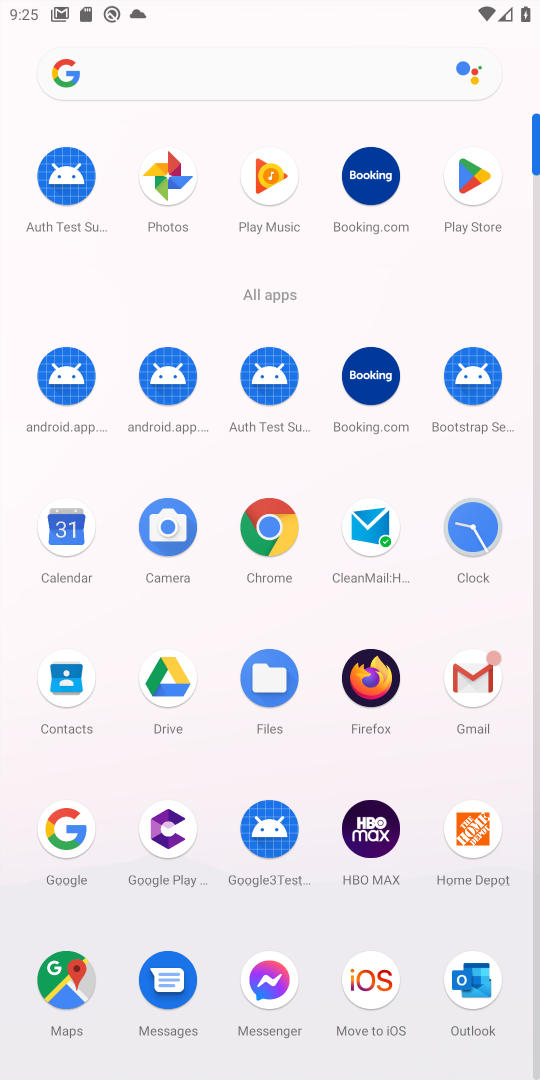
Step 53: drag from (324, 872) to (310, 281)
Your task to perform on an android device: uninstall "Roku - Official Remote Control" Image 54: 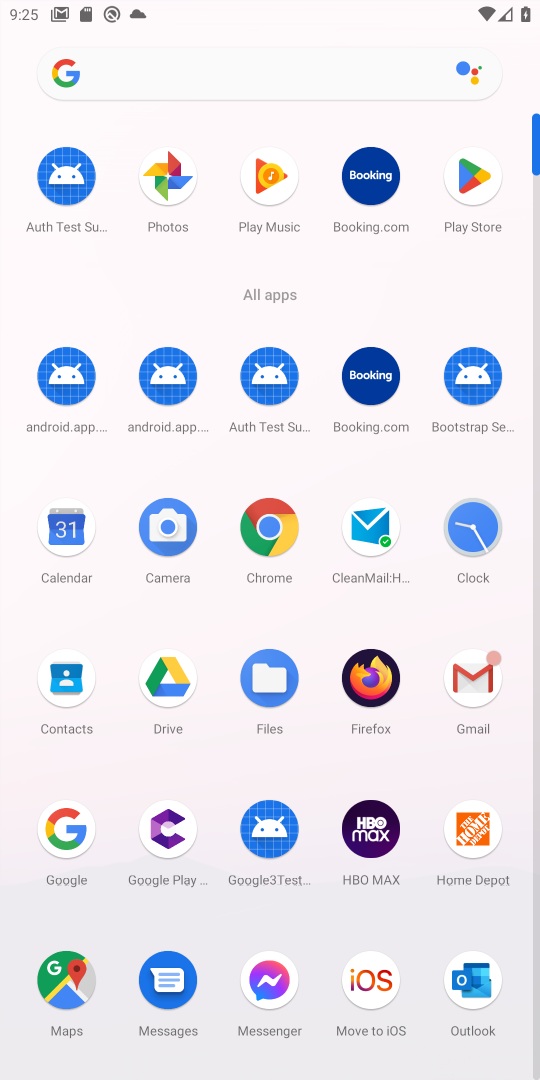
Step 54: click (468, 174)
Your task to perform on an android device: uninstall "Roku - Official Remote Control" Image 55: 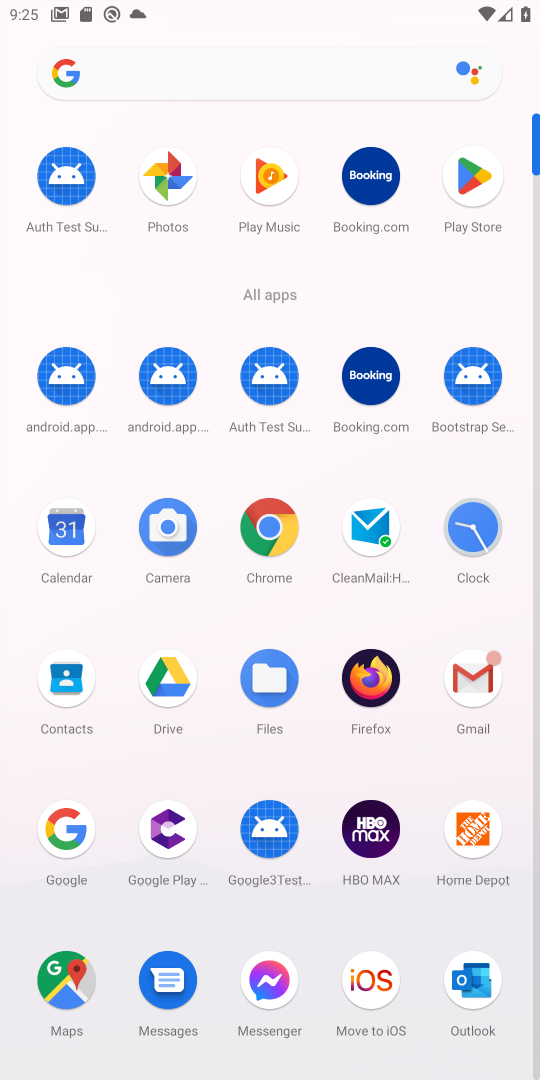
Step 55: click (467, 176)
Your task to perform on an android device: uninstall "Roku - Official Remote Control" Image 56: 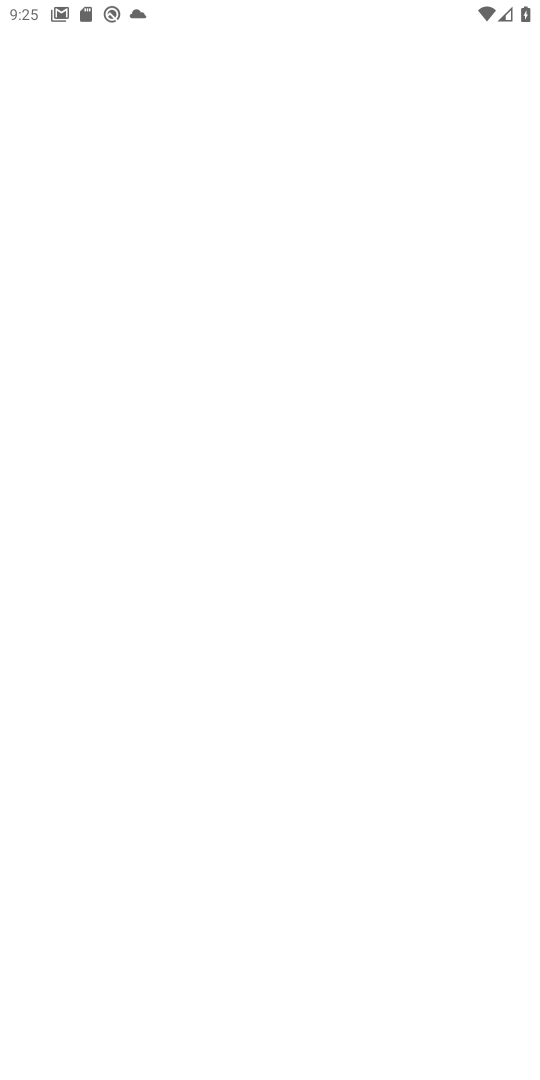
Step 56: click (468, 175)
Your task to perform on an android device: uninstall "Roku - Official Remote Control" Image 57: 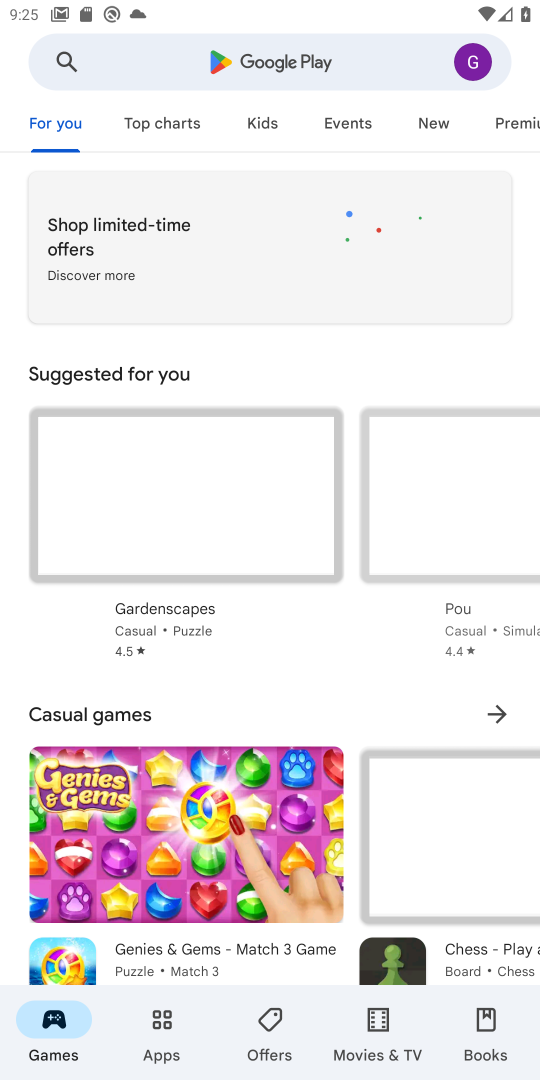
Step 57: click (166, 51)
Your task to perform on an android device: uninstall "Roku - Official Remote Control" Image 58: 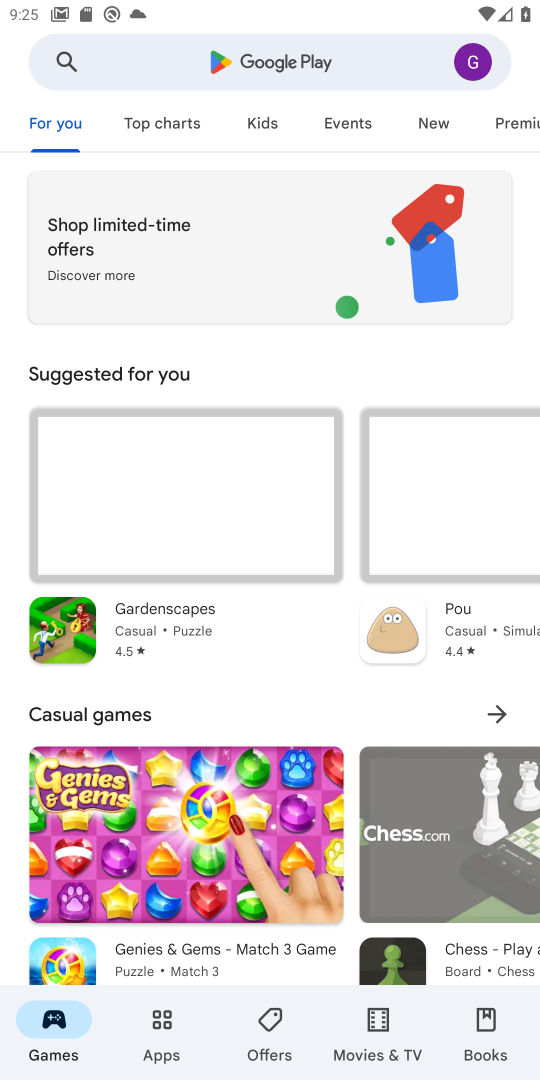
Step 58: click (168, 51)
Your task to perform on an android device: uninstall "Roku - Official Remote Control" Image 59: 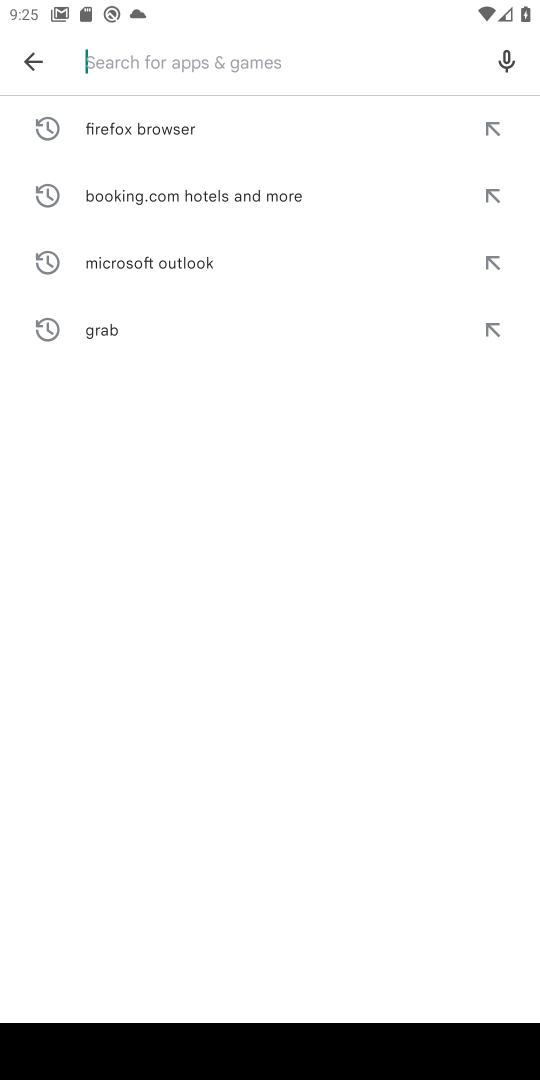
Step 59: click (184, 70)
Your task to perform on an android device: uninstall "Roku - Official Remote Control" Image 60: 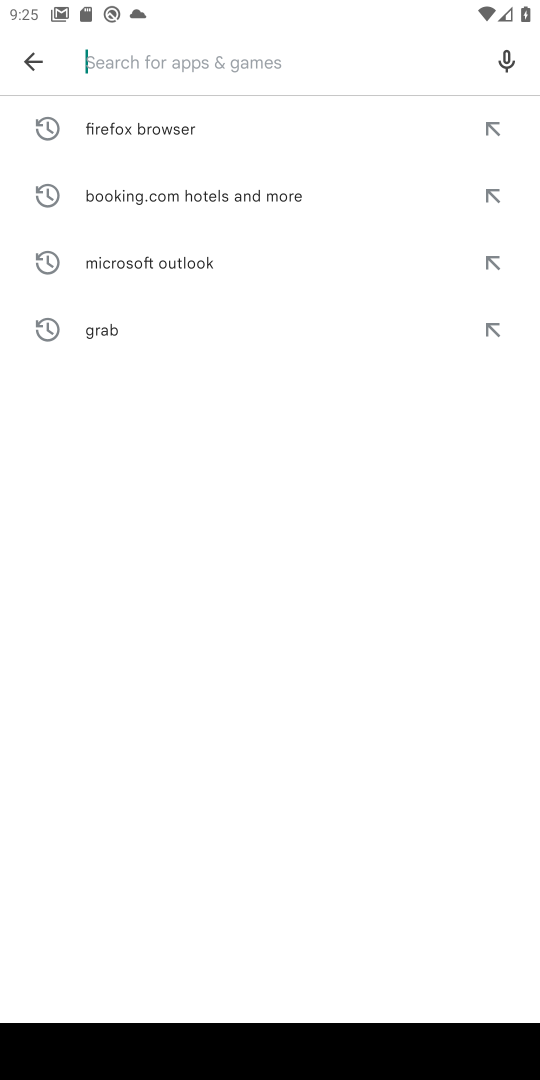
Step 60: type "Roku- Official Remote Control"
Your task to perform on an android device: uninstall "Roku - Official Remote Control" Image 61: 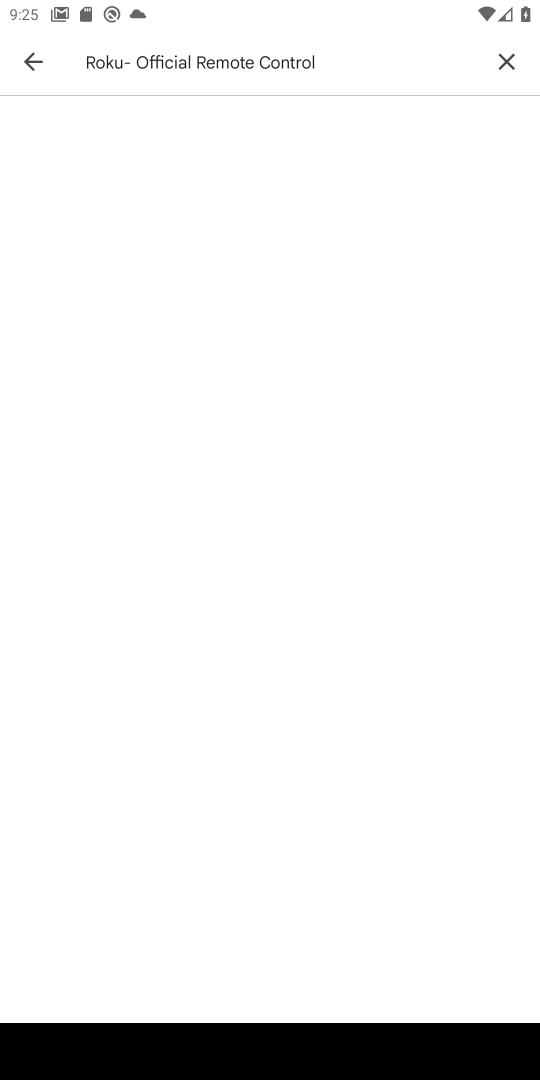
Step 61: click (216, 72)
Your task to perform on an android device: uninstall "Roku - Official Remote Control" Image 62: 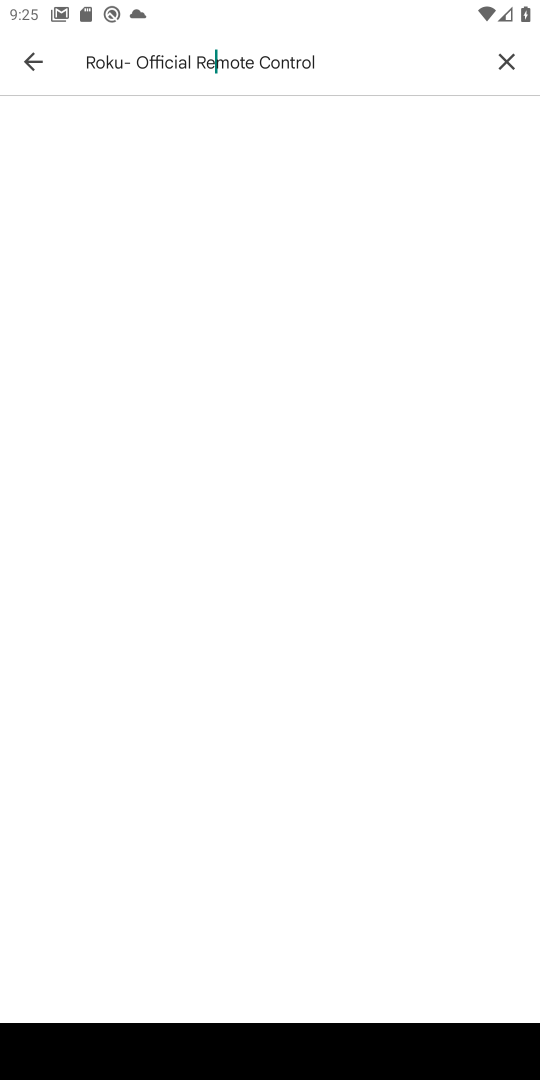
Step 62: task complete